Your task to perform on an android device: Search for a new lipgloss Image 0: 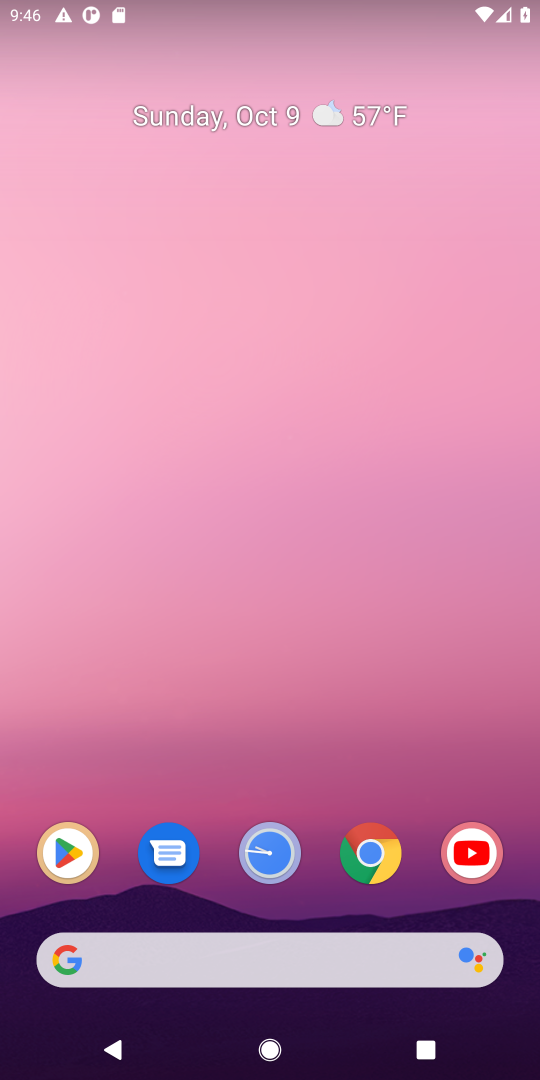
Step 0: click (367, 849)
Your task to perform on an android device: Search for a new lipgloss Image 1: 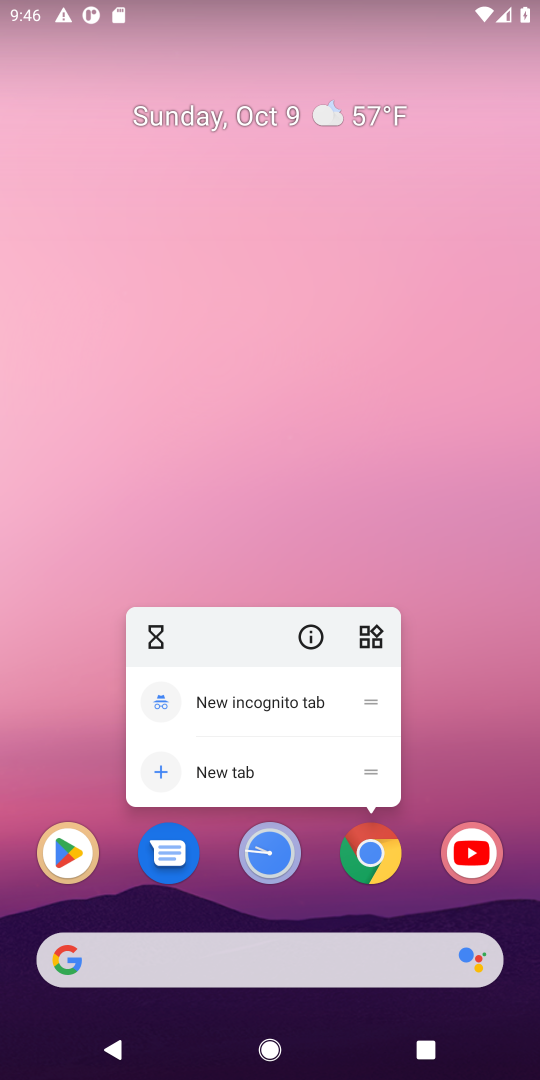
Step 1: click (367, 849)
Your task to perform on an android device: Search for a new lipgloss Image 2: 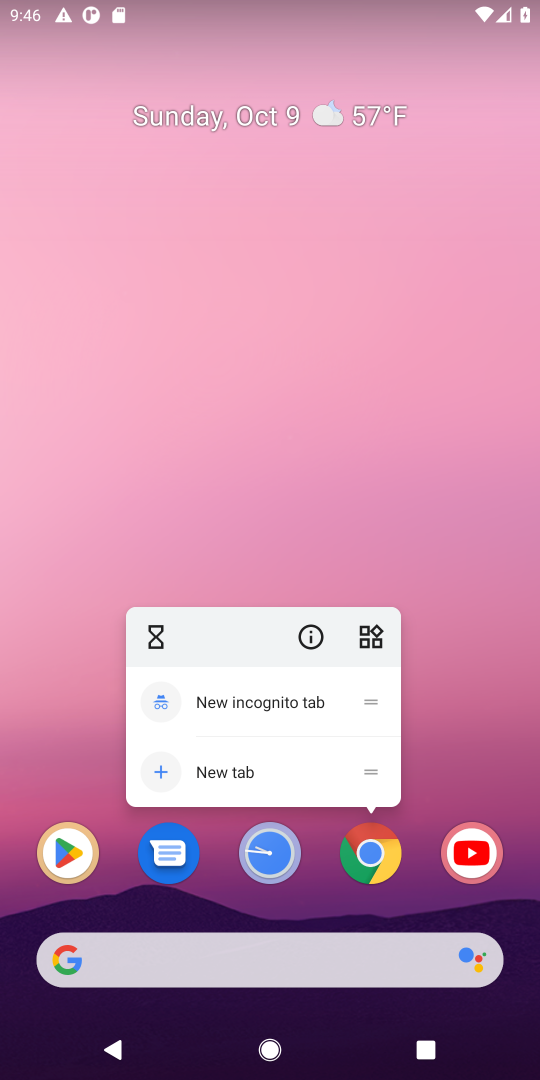
Step 2: click (368, 873)
Your task to perform on an android device: Search for a new lipgloss Image 3: 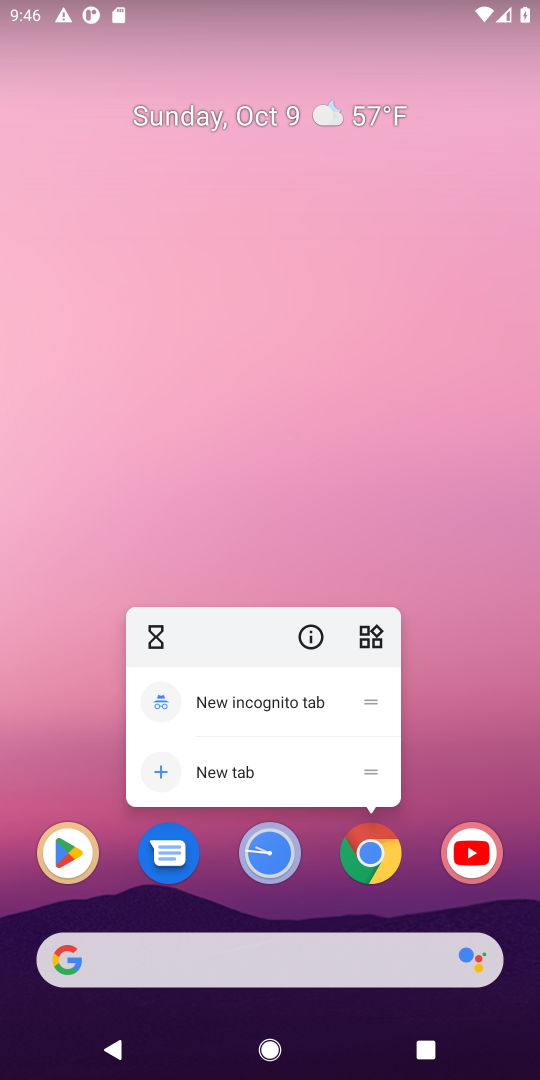
Step 3: click (368, 873)
Your task to perform on an android device: Search for a new lipgloss Image 4: 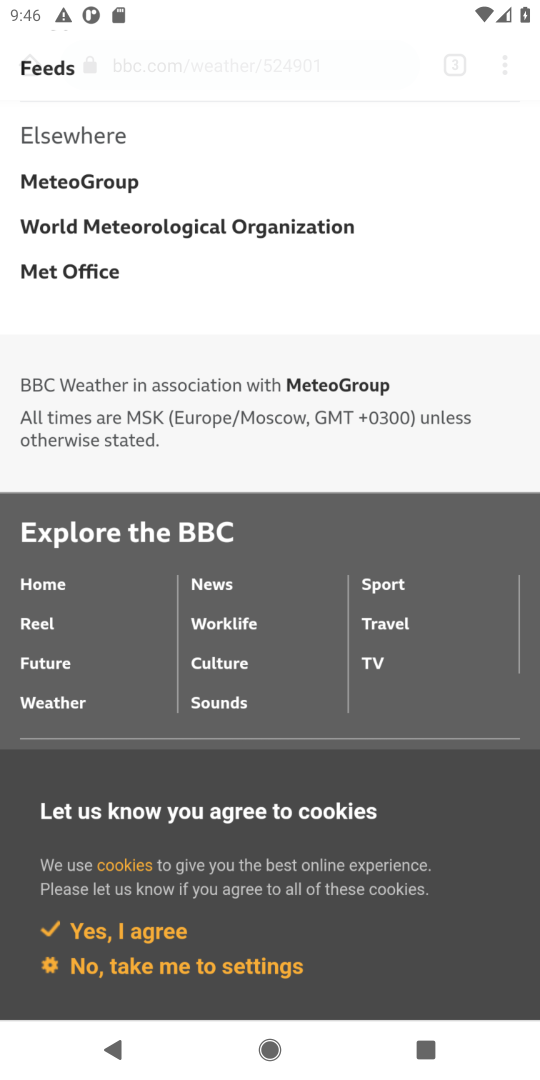
Step 4: click (368, 873)
Your task to perform on an android device: Search for a new lipgloss Image 5: 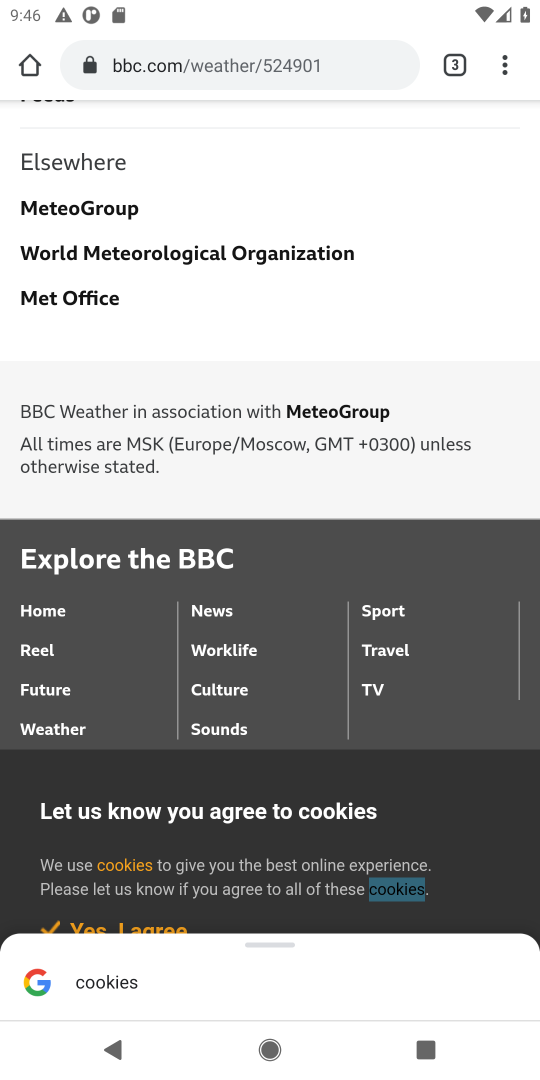
Step 5: click (132, 60)
Your task to perform on an android device: Search for a new lipgloss Image 6: 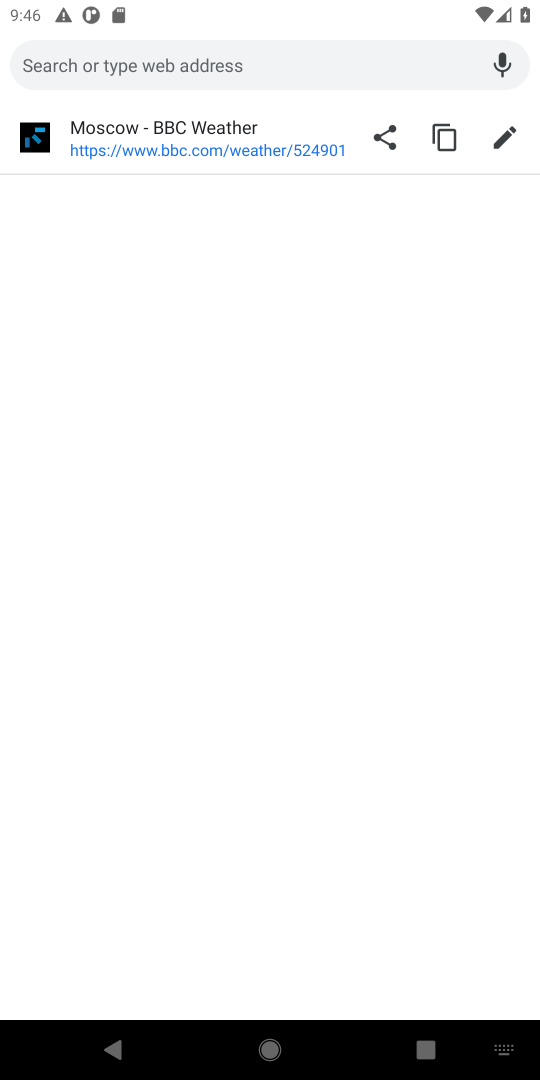
Step 6: type "new lipgloss"
Your task to perform on an android device: Search for a new lipgloss Image 7: 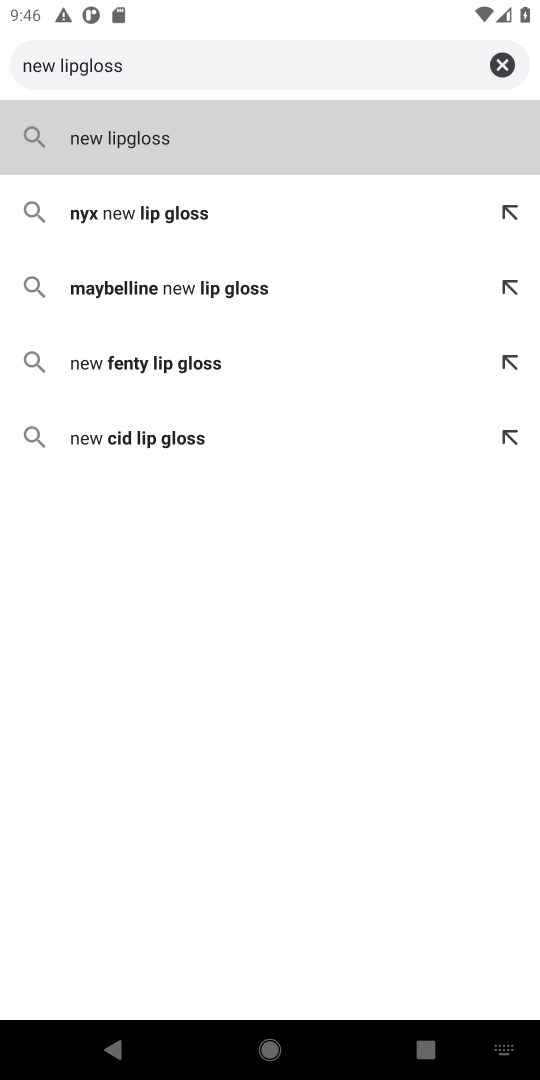
Step 7: type ""
Your task to perform on an android device: Search for a new lipgloss Image 8: 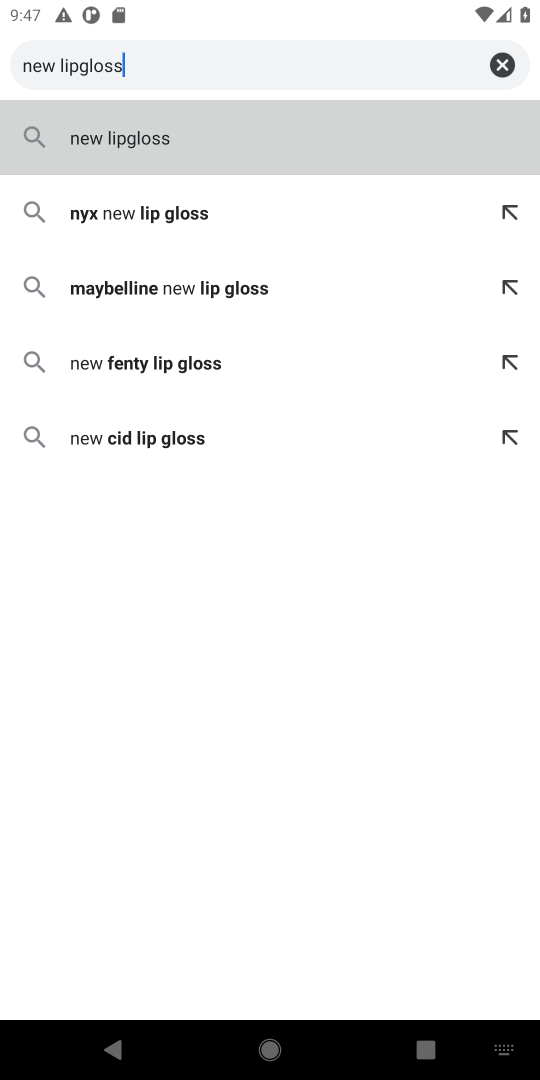
Step 8: press enter
Your task to perform on an android device: Search for a new lipgloss Image 9: 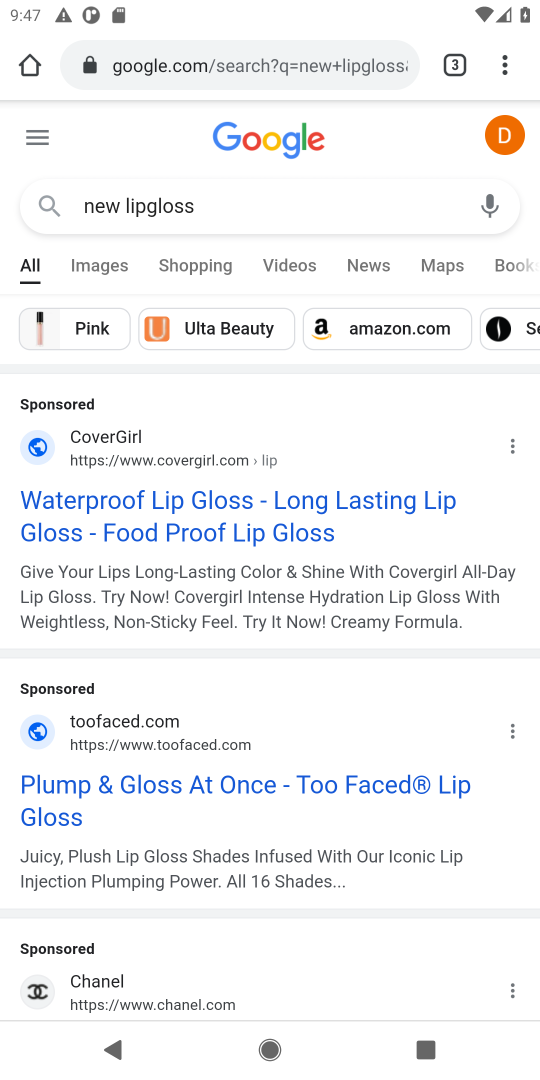
Step 9: drag from (226, 777) to (231, 401)
Your task to perform on an android device: Search for a new lipgloss Image 10: 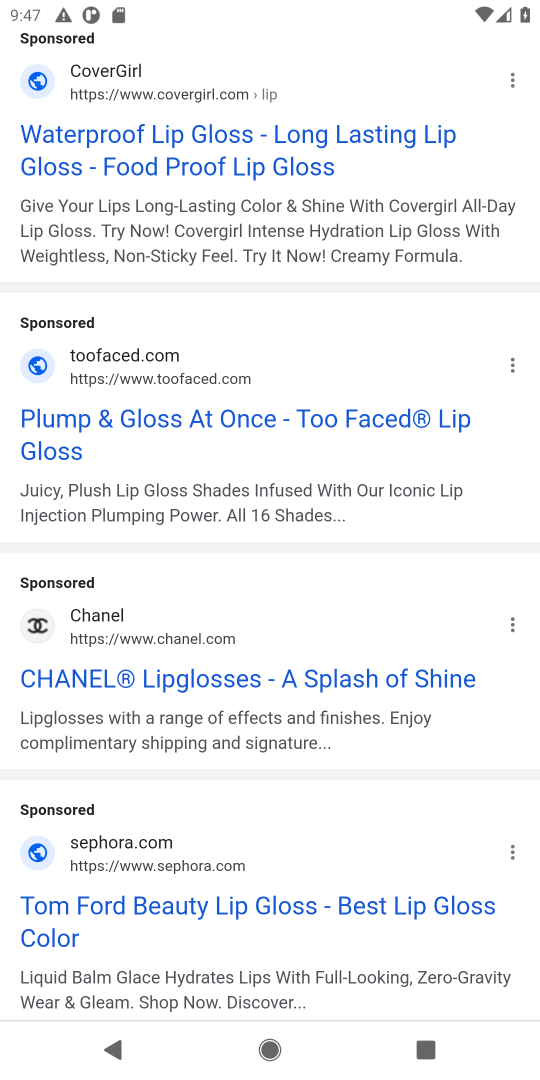
Step 10: click (245, 121)
Your task to perform on an android device: Search for a new lipgloss Image 11: 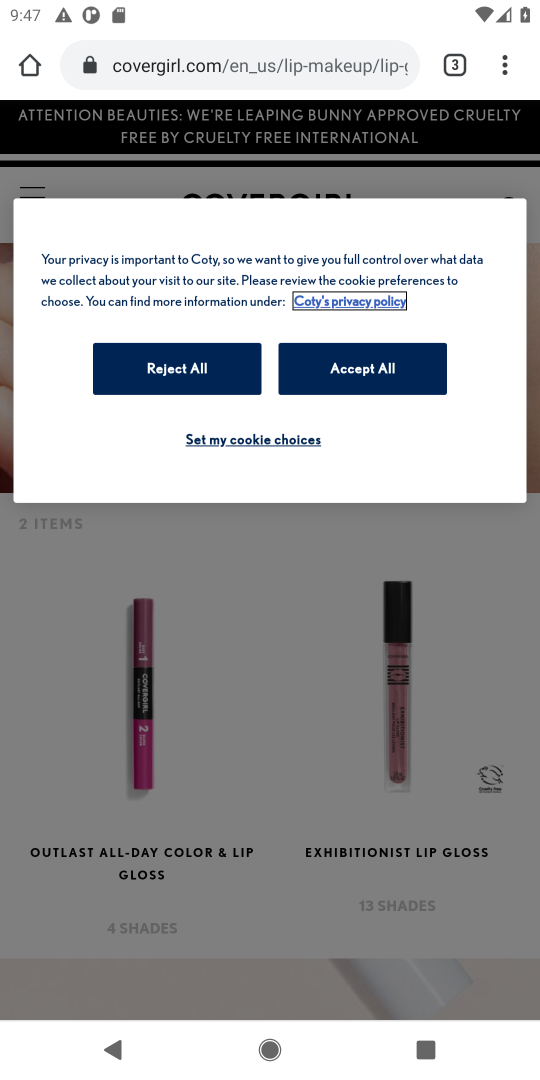
Step 11: drag from (343, 777) to (349, 427)
Your task to perform on an android device: Search for a new lipgloss Image 12: 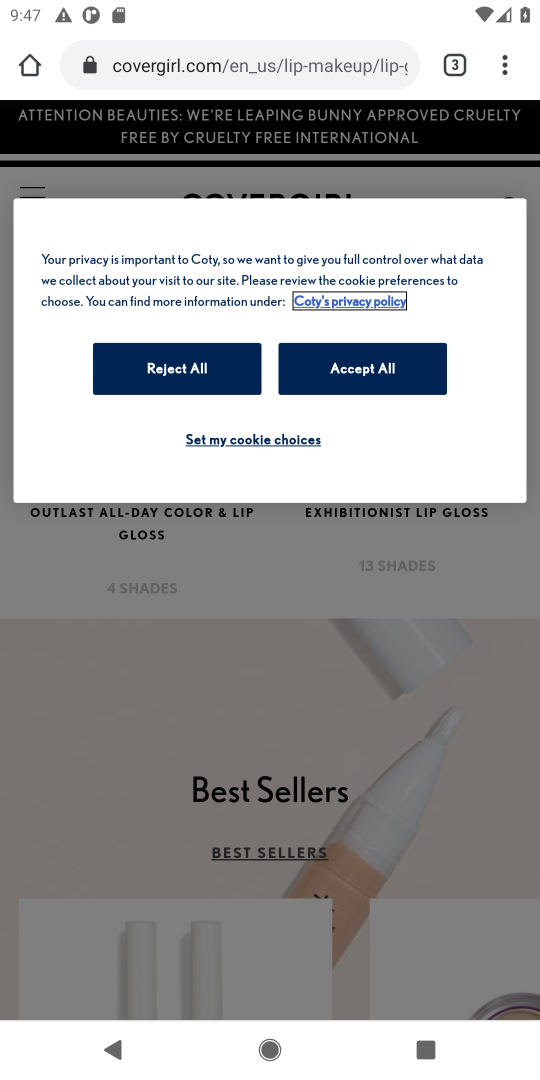
Step 12: click (208, 370)
Your task to perform on an android device: Search for a new lipgloss Image 13: 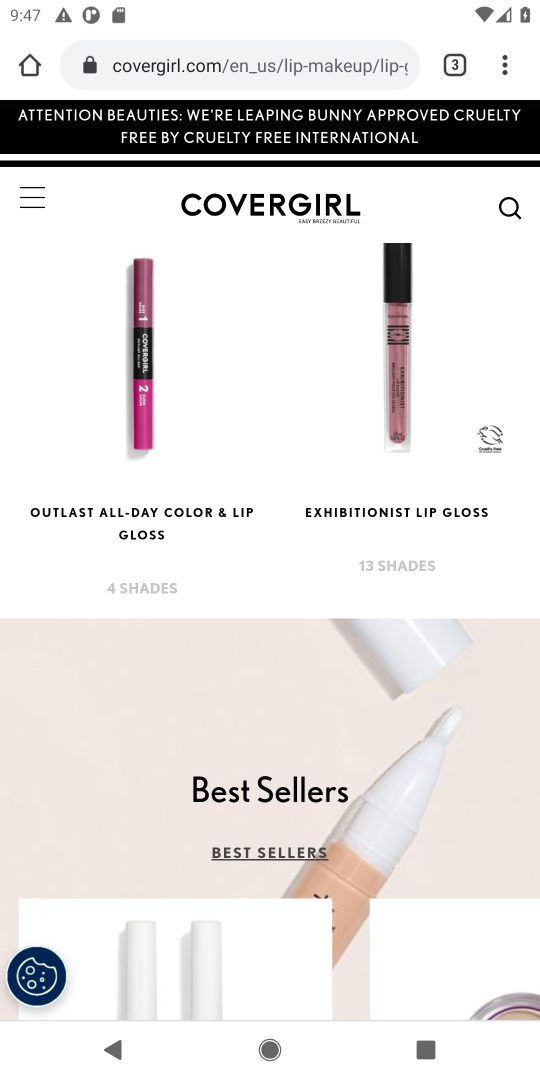
Step 13: drag from (264, 653) to (269, 366)
Your task to perform on an android device: Search for a new lipgloss Image 14: 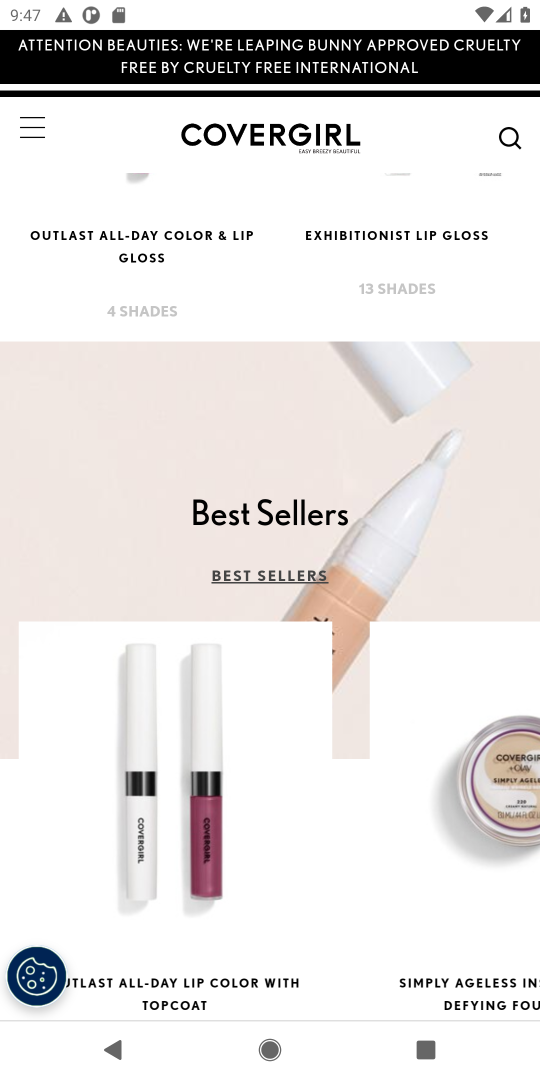
Step 14: drag from (283, 790) to (310, 341)
Your task to perform on an android device: Search for a new lipgloss Image 15: 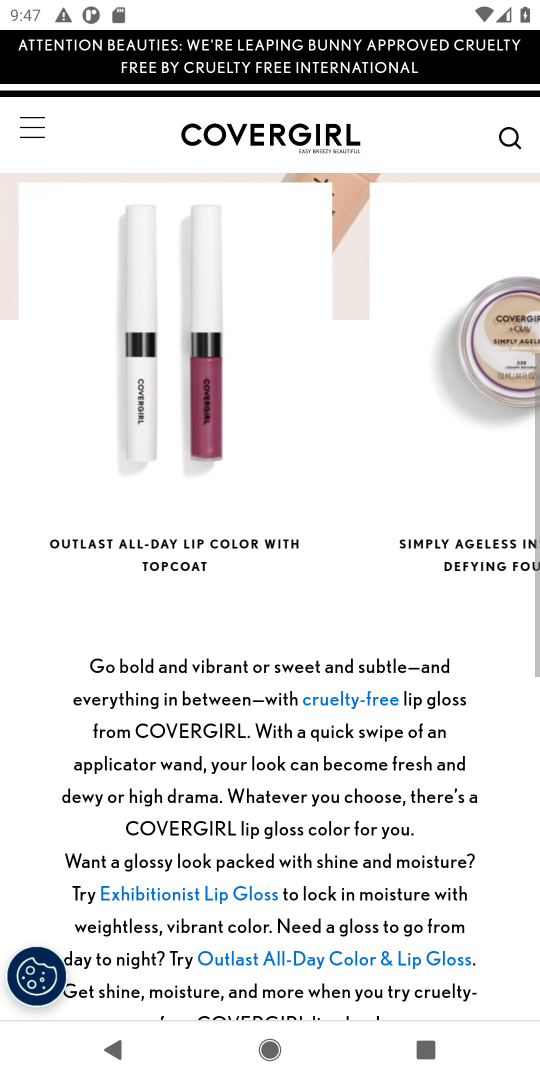
Step 15: drag from (361, 671) to (378, 255)
Your task to perform on an android device: Search for a new lipgloss Image 16: 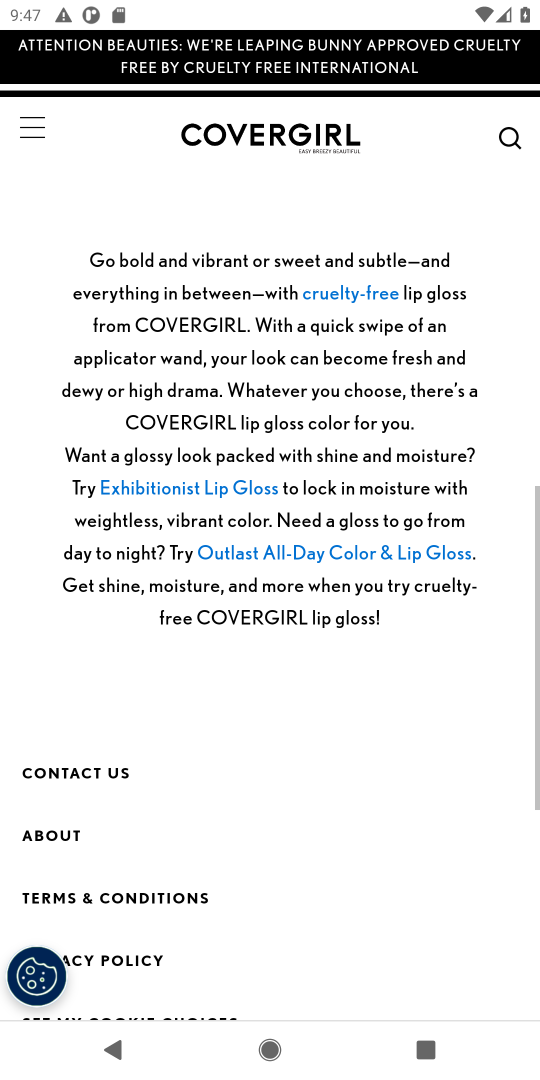
Step 16: drag from (378, 813) to (377, 379)
Your task to perform on an android device: Search for a new lipgloss Image 17: 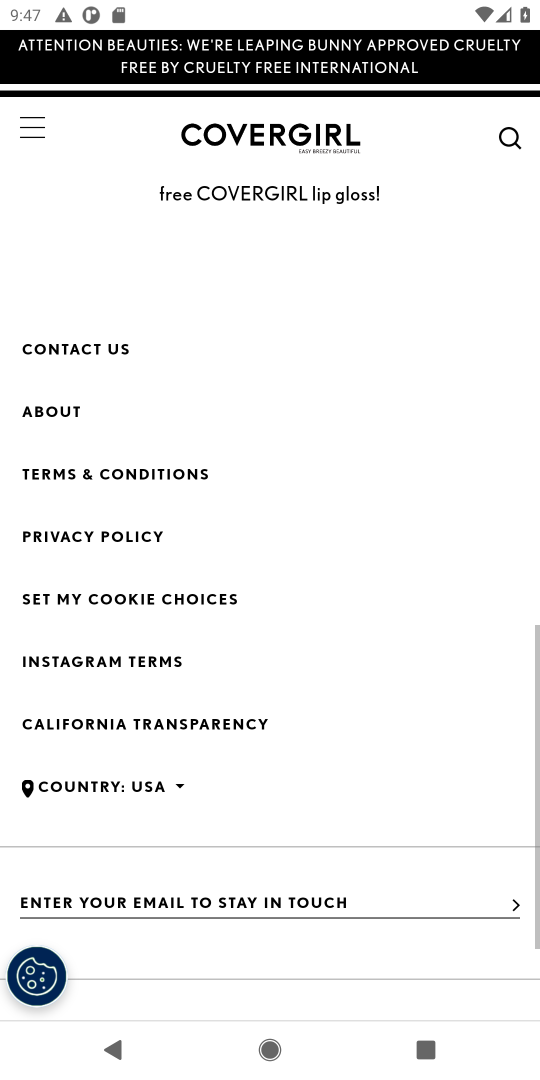
Step 17: drag from (363, 834) to (327, 467)
Your task to perform on an android device: Search for a new lipgloss Image 18: 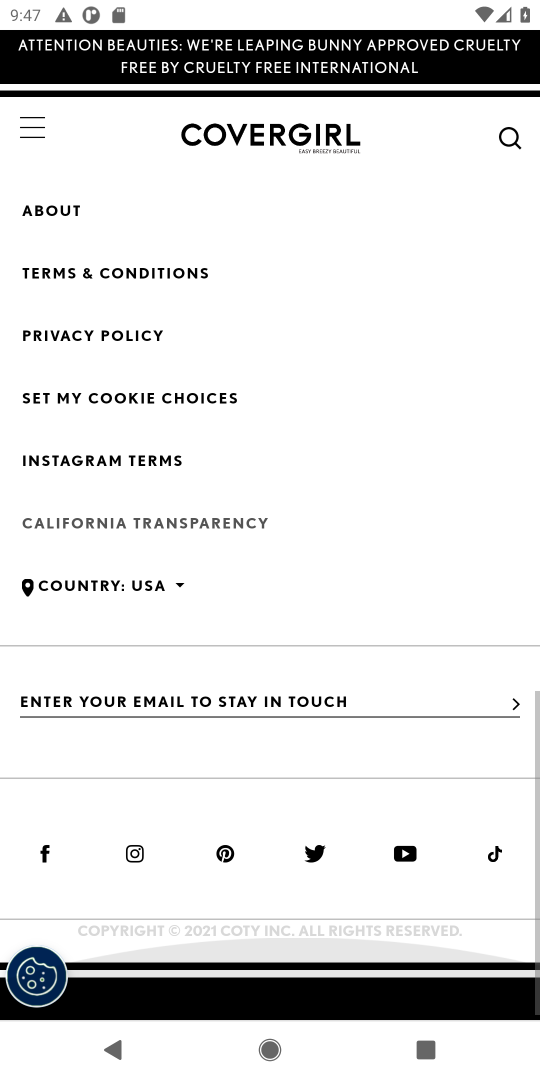
Step 18: drag from (333, 759) to (350, 354)
Your task to perform on an android device: Search for a new lipgloss Image 19: 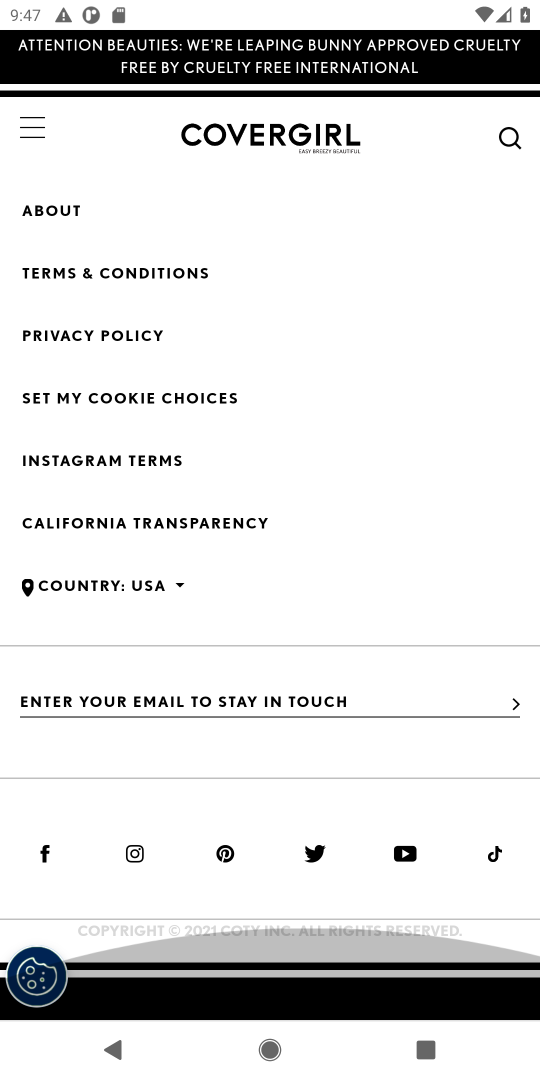
Step 19: drag from (363, 606) to (389, 914)
Your task to perform on an android device: Search for a new lipgloss Image 20: 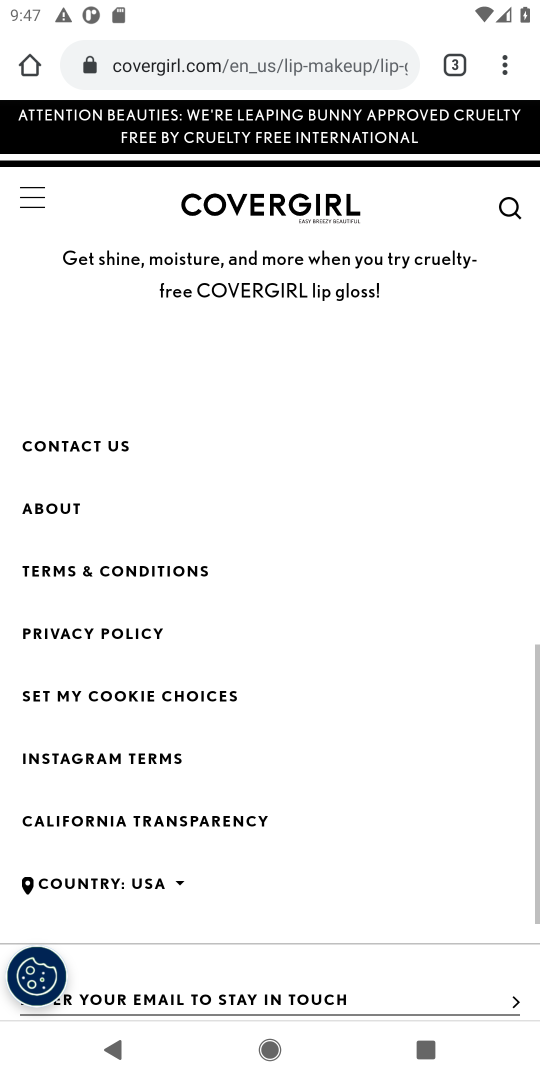
Step 20: drag from (354, 331) to (355, 891)
Your task to perform on an android device: Search for a new lipgloss Image 21: 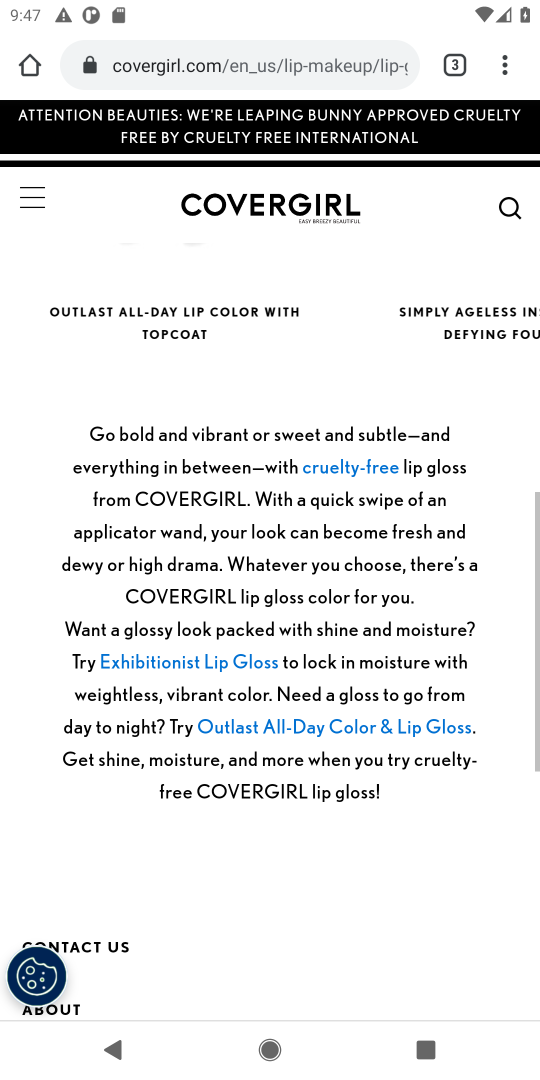
Step 21: drag from (280, 407) to (328, 940)
Your task to perform on an android device: Search for a new lipgloss Image 22: 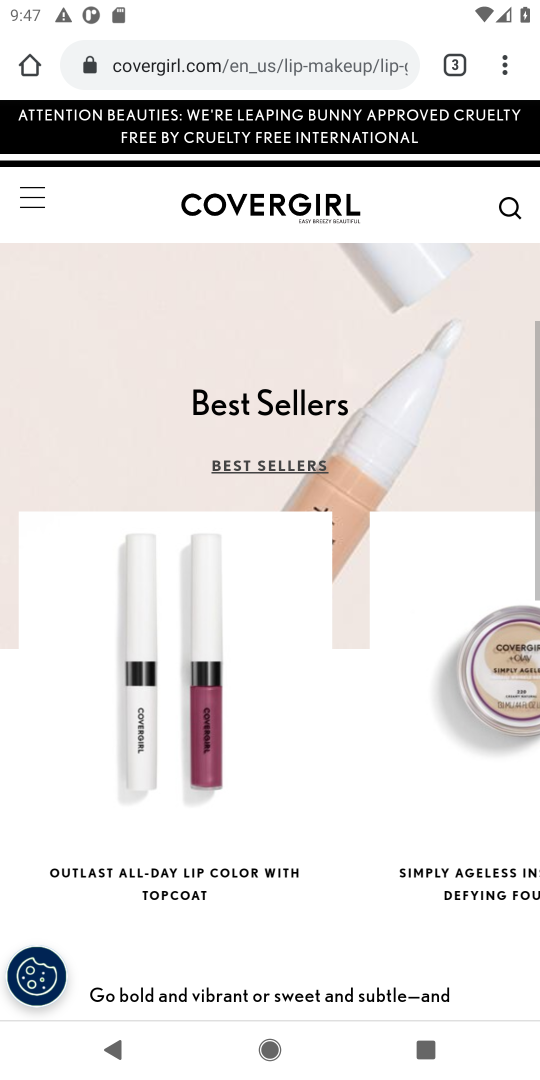
Step 22: drag from (329, 853) to (396, 865)
Your task to perform on an android device: Search for a new lipgloss Image 23: 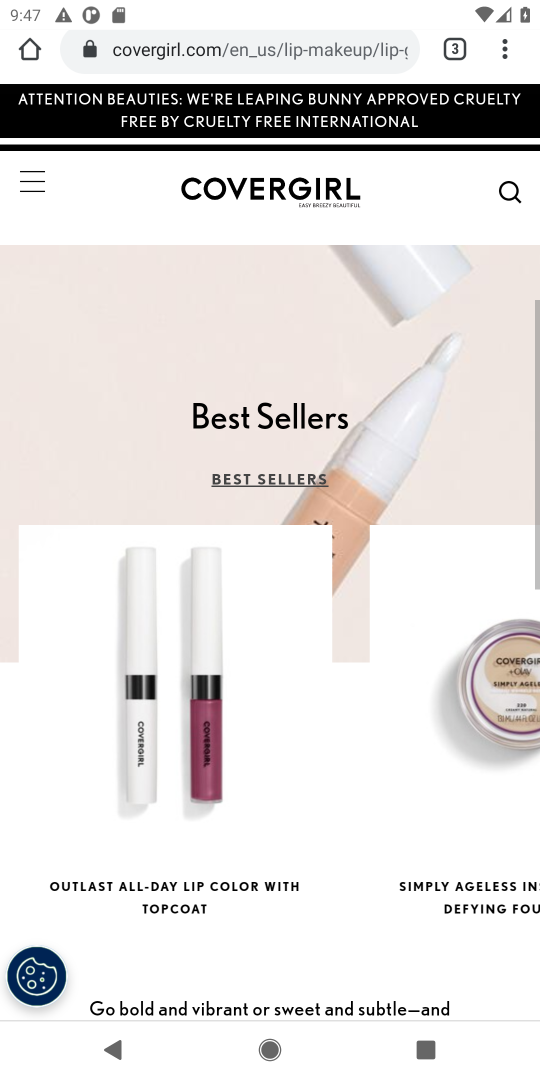
Step 23: drag from (335, 364) to (391, 907)
Your task to perform on an android device: Search for a new lipgloss Image 24: 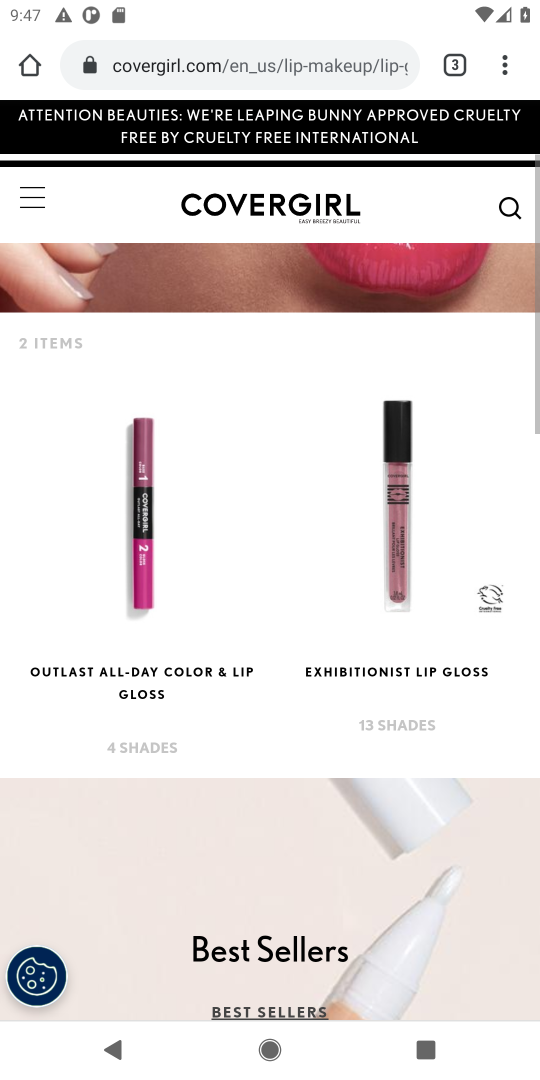
Step 24: drag from (330, 433) to (390, 901)
Your task to perform on an android device: Search for a new lipgloss Image 25: 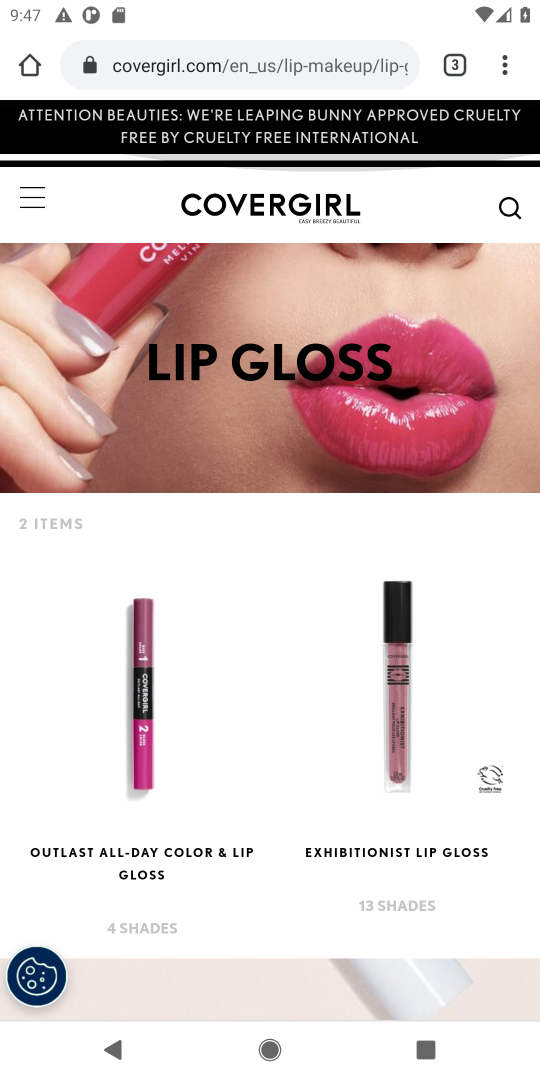
Step 25: drag from (359, 401) to (435, 992)
Your task to perform on an android device: Search for a new lipgloss Image 26: 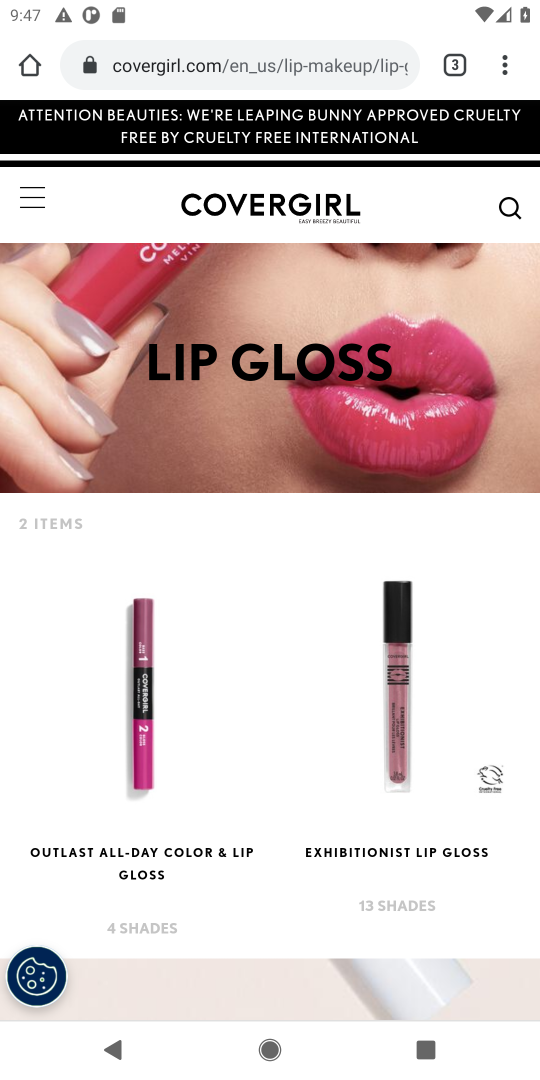
Step 26: drag from (234, 561) to (279, 931)
Your task to perform on an android device: Search for a new lipgloss Image 27: 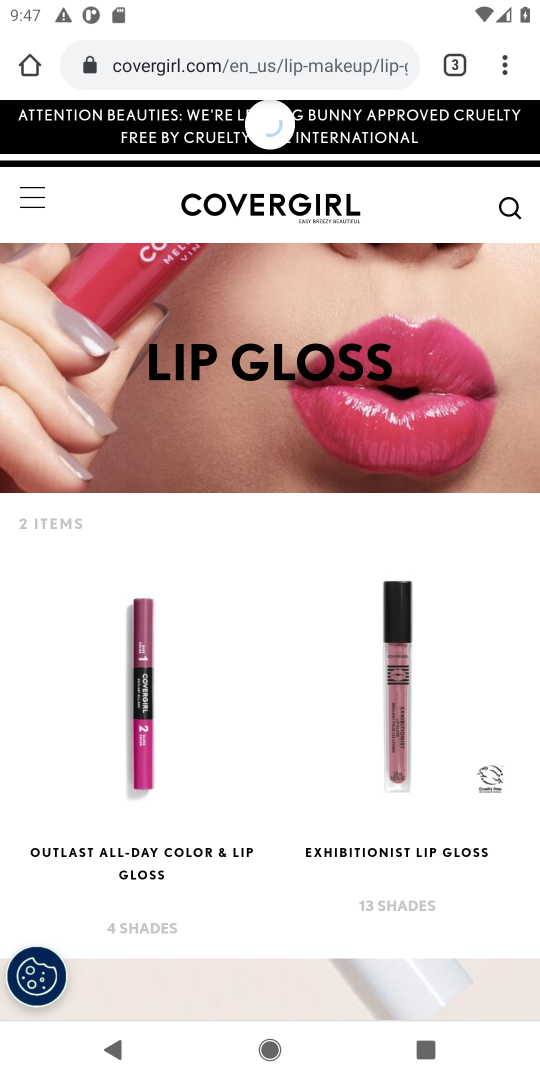
Step 27: drag from (264, 651) to (318, 281)
Your task to perform on an android device: Search for a new lipgloss Image 28: 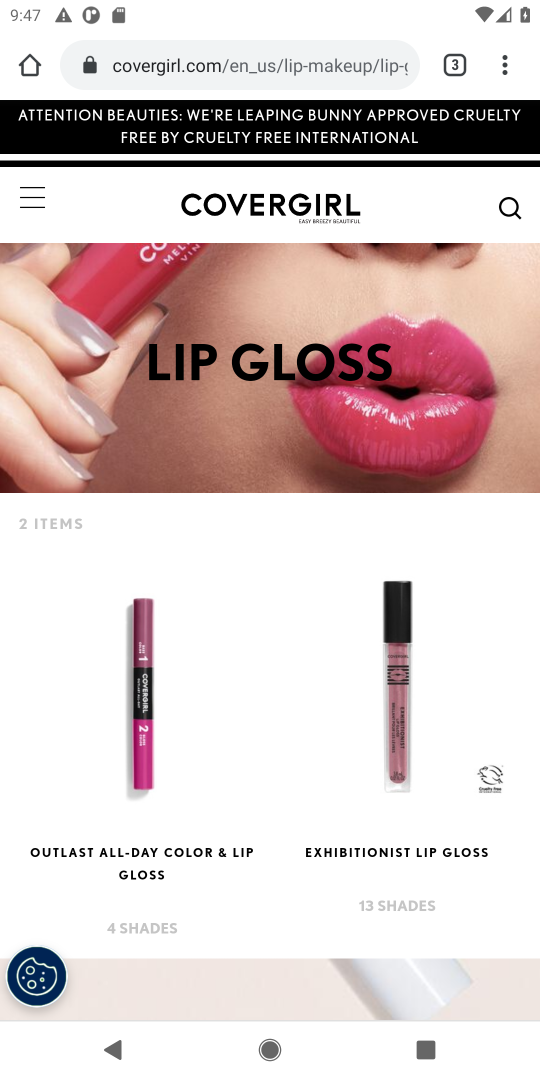
Step 28: drag from (371, 826) to (154, 717)
Your task to perform on an android device: Search for a new lipgloss Image 29: 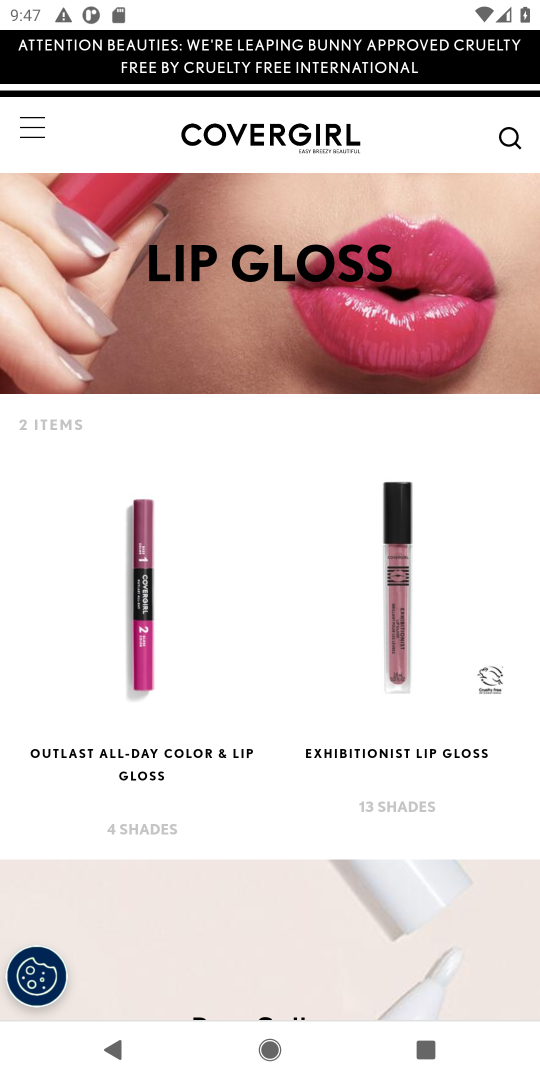
Step 29: click (154, 717)
Your task to perform on an android device: Search for a new lipgloss Image 30: 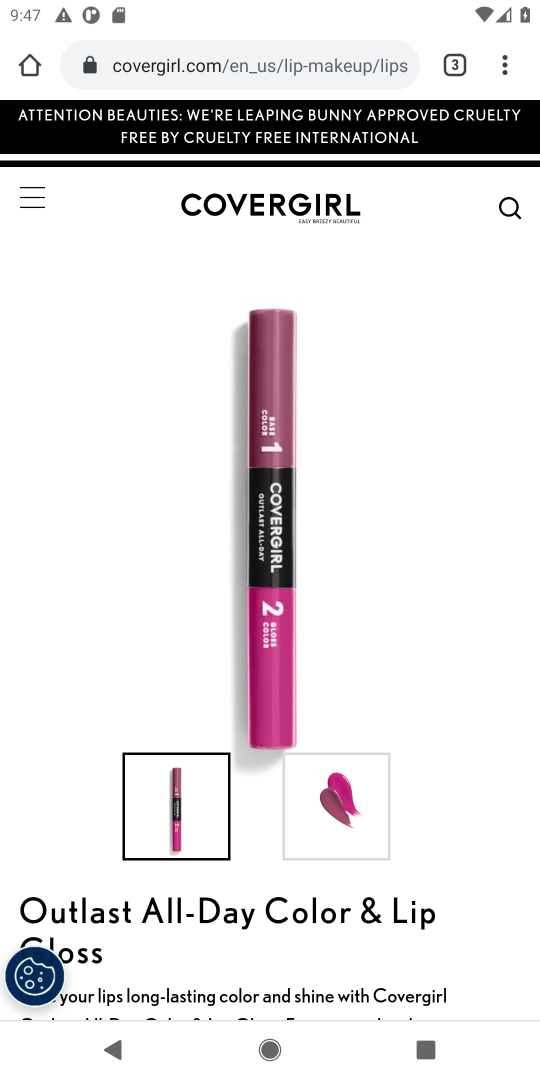
Step 30: drag from (305, 834) to (302, 320)
Your task to perform on an android device: Search for a new lipgloss Image 31: 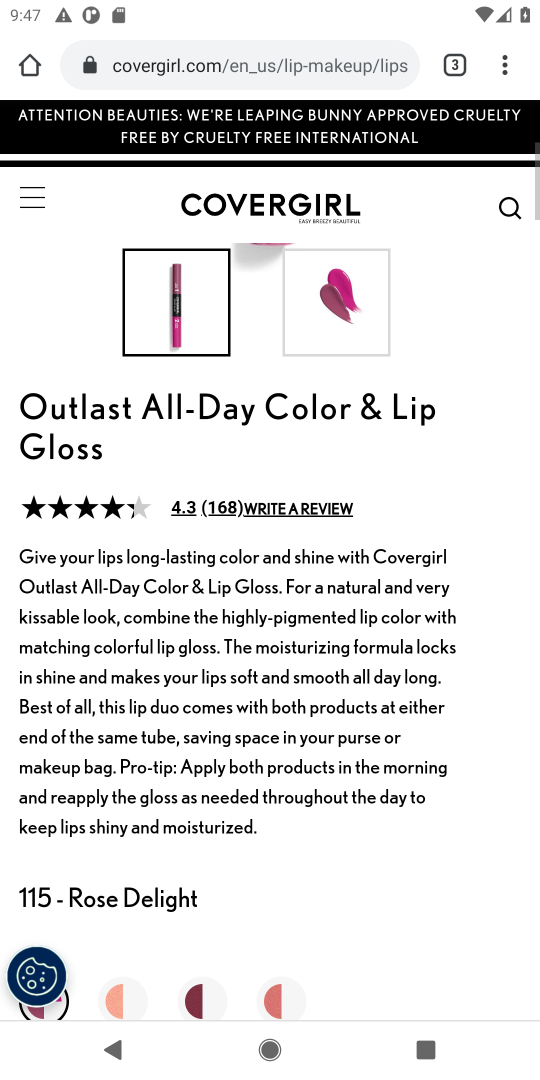
Step 31: drag from (345, 784) to (377, 373)
Your task to perform on an android device: Search for a new lipgloss Image 32: 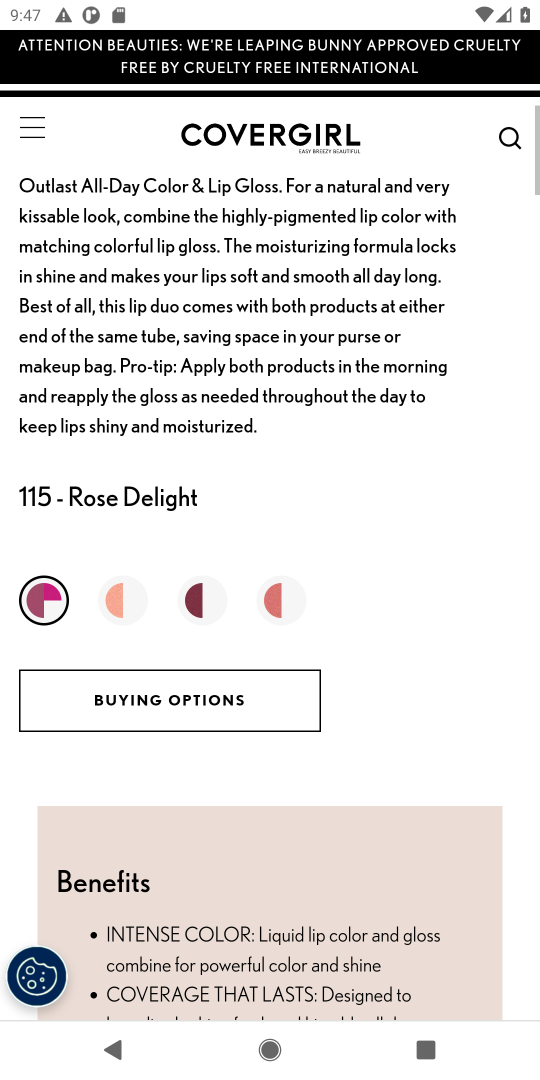
Step 32: drag from (344, 641) to (349, 421)
Your task to perform on an android device: Search for a new lipgloss Image 33: 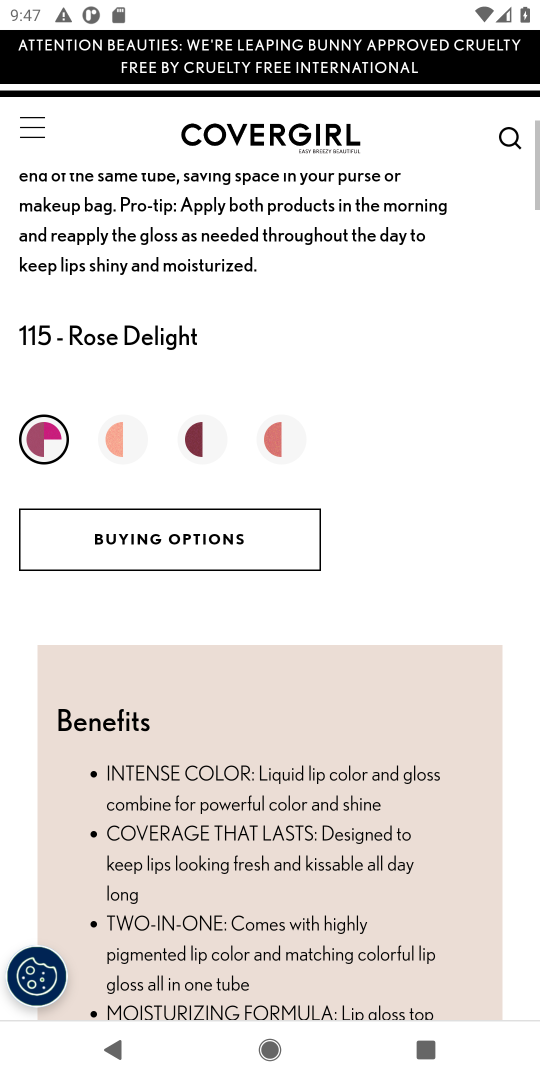
Step 33: drag from (359, 668) to (390, 450)
Your task to perform on an android device: Search for a new lipgloss Image 34: 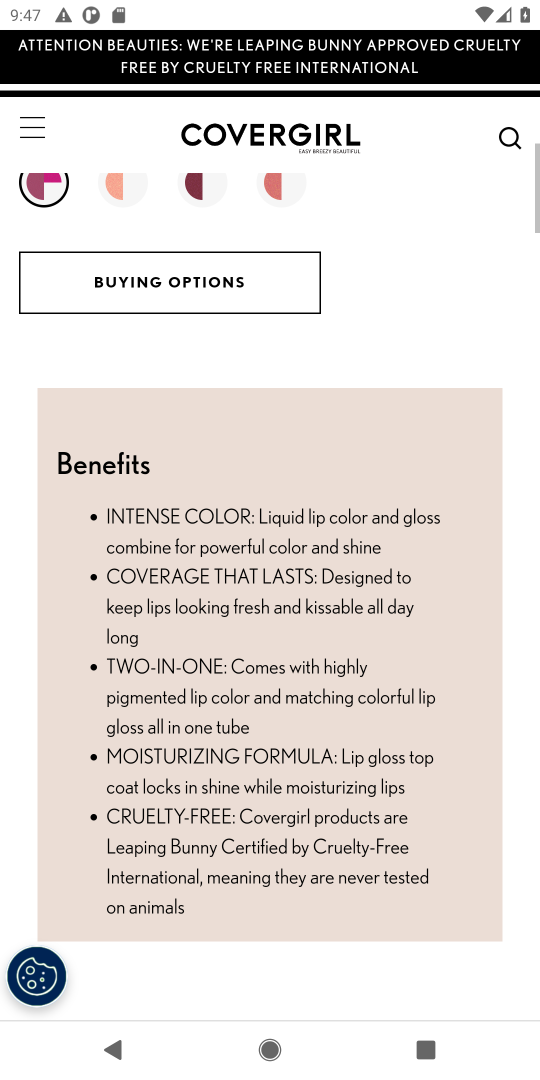
Step 34: drag from (377, 655) to (370, 408)
Your task to perform on an android device: Search for a new lipgloss Image 35: 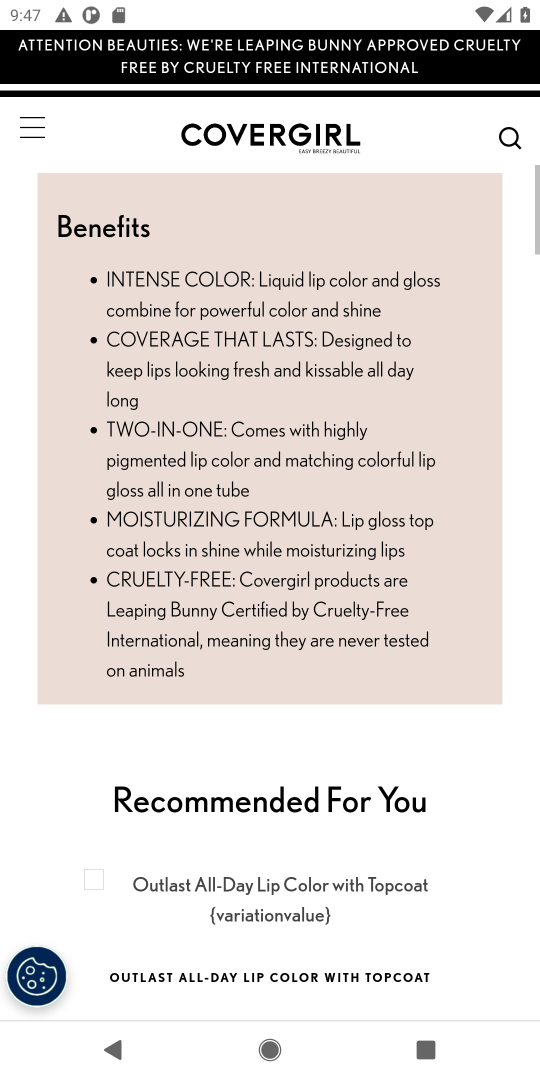
Step 35: drag from (390, 567) to (398, 315)
Your task to perform on an android device: Search for a new lipgloss Image 36: 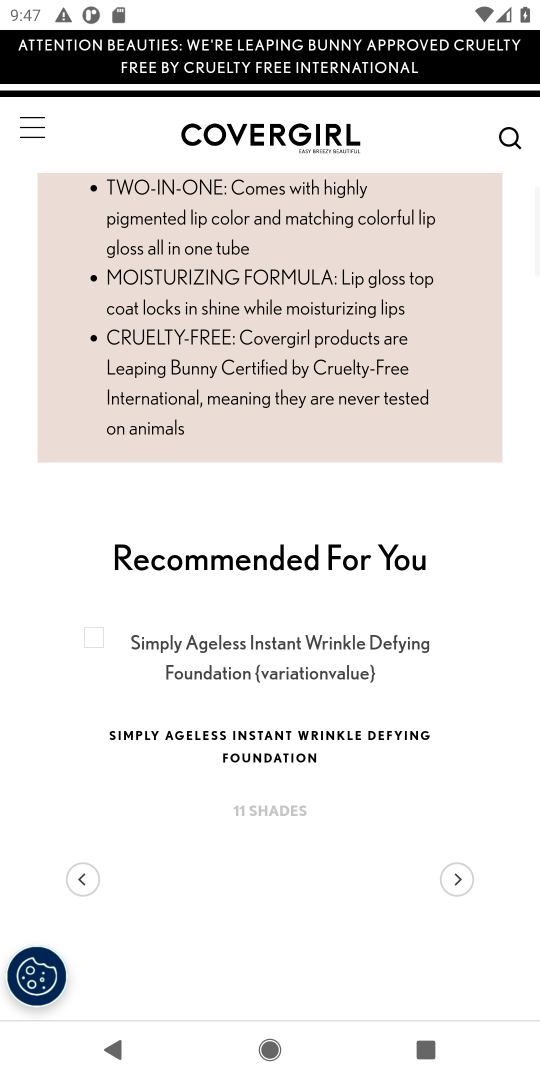
Step 36: drag from (376, 571) to (390, 414)
Your task to perform on an android device: Search for a new lipgloss Image 37: 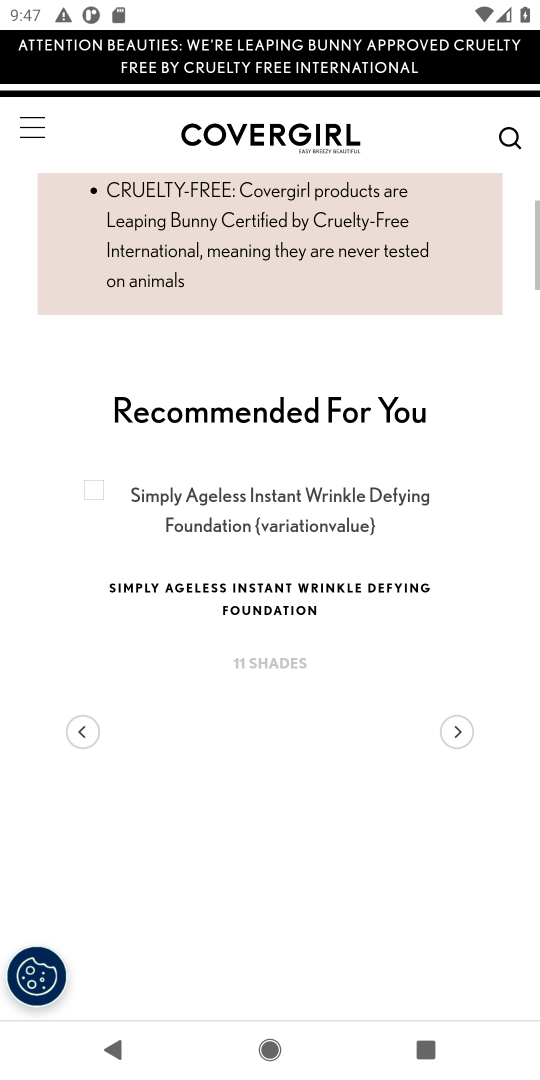
Step 37: drag from (328, 708) to (354, 267)
Your task to perform on an android device: Search for a new lipgloss Image 38: 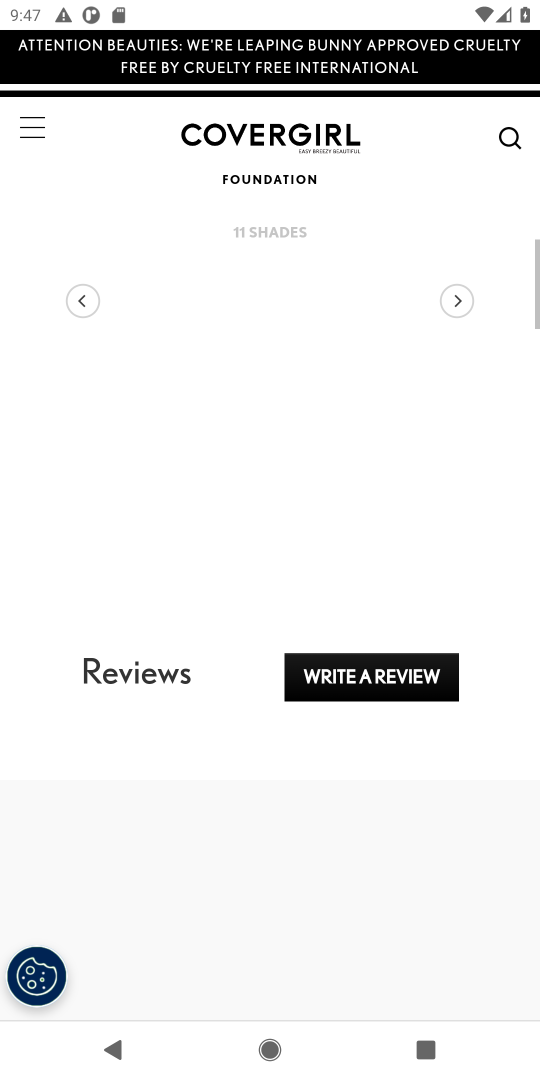
Step 38: drag from (375, 415) to (364, 324)
Your task to perform on an android device: Search for a new lipgloss Image 39: 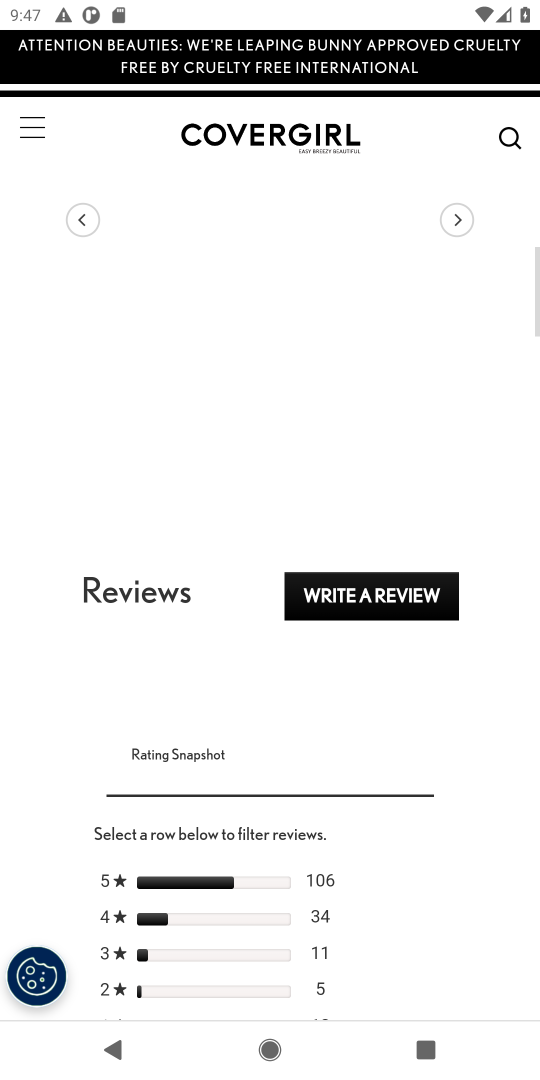
Step 39: press back button
Your task to perform on an android device: Search for a new lipgloss Image 40: 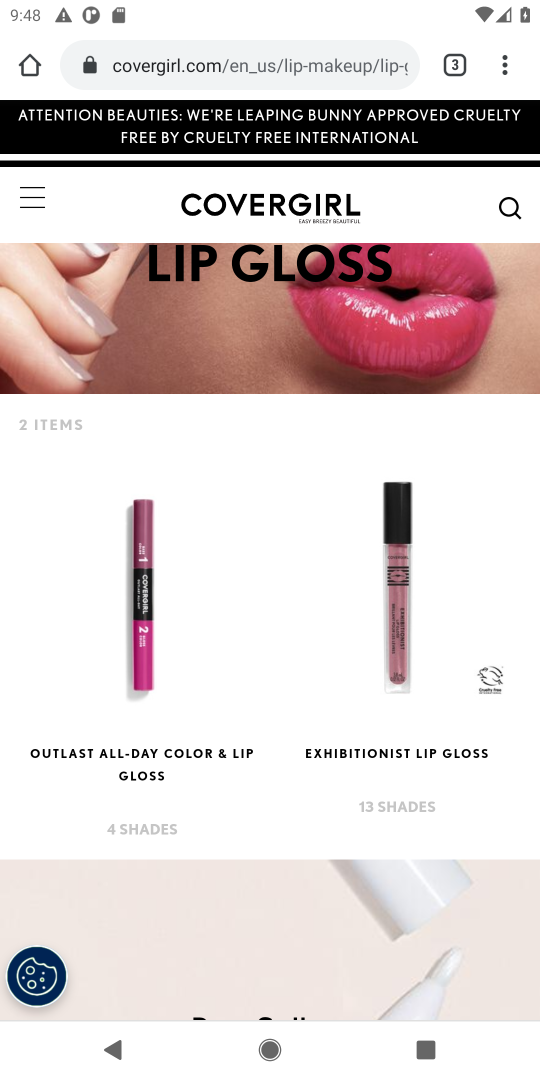
Step 40: drag from (301, 745) to (351, 233)
Your task to perform on an android device: Search for a new lipgloss Image 41: 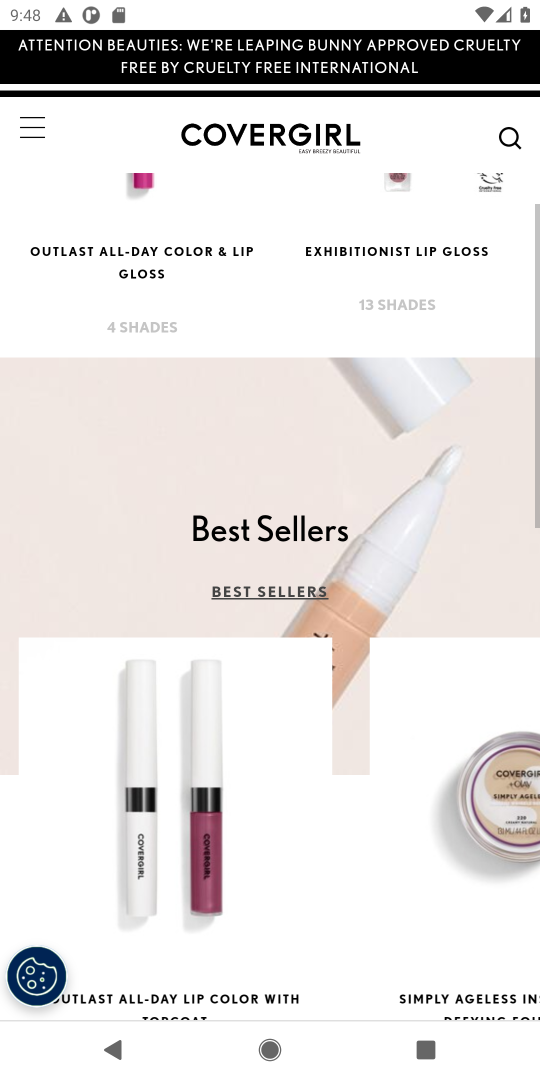
Step 41: drag from (375, 570) to (338, 276)
Your task to perform on an android device: Search for a new lipgloss Image 42: 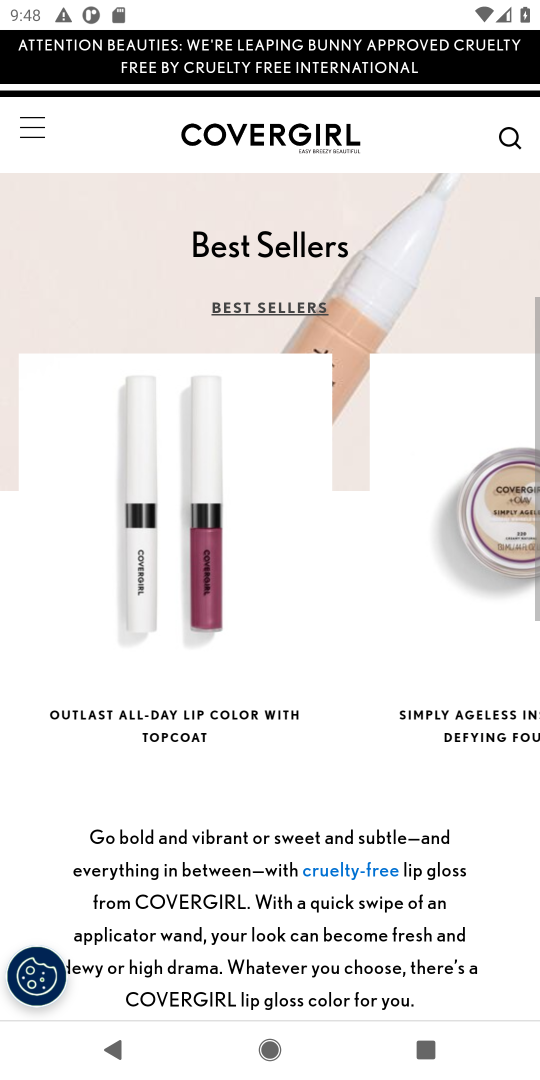
Step 42: drag from (378, 801) to (371, 275)
Your task to perform on an android device: Search for a new lipgloss Image 43: 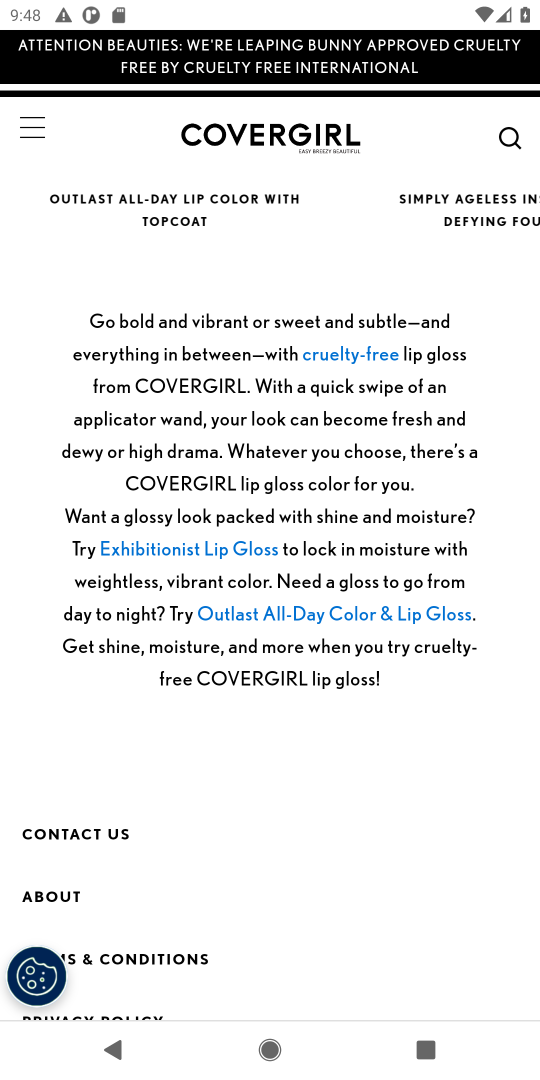
Step 43: press back button
Your task to perform on an android device: Search for a new lipgloss Image 44: 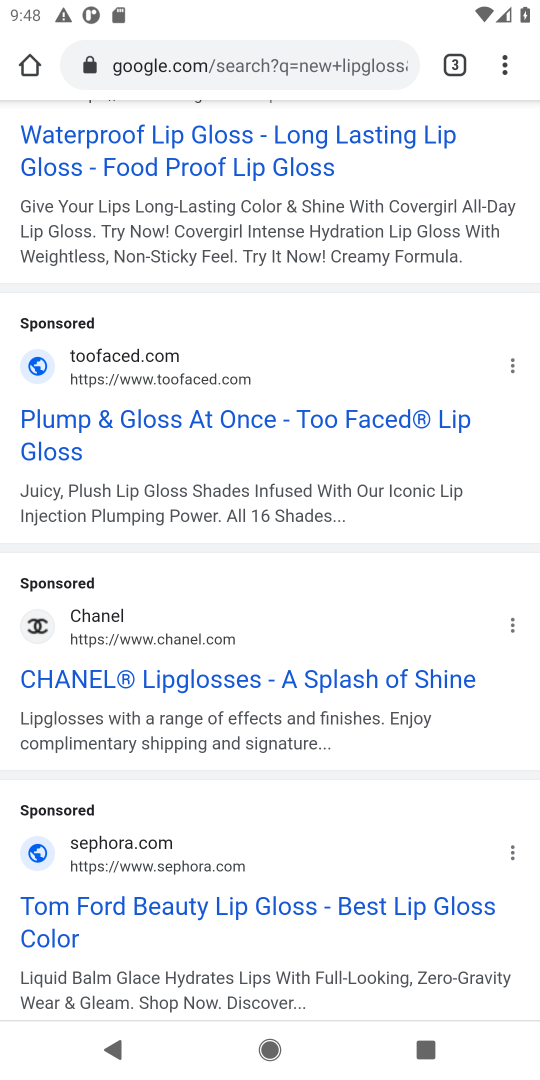
Step 44: drag from (404, 849) to (398, 135)
Your task to perform on an android device: Search for a new lipgloss Image 45: 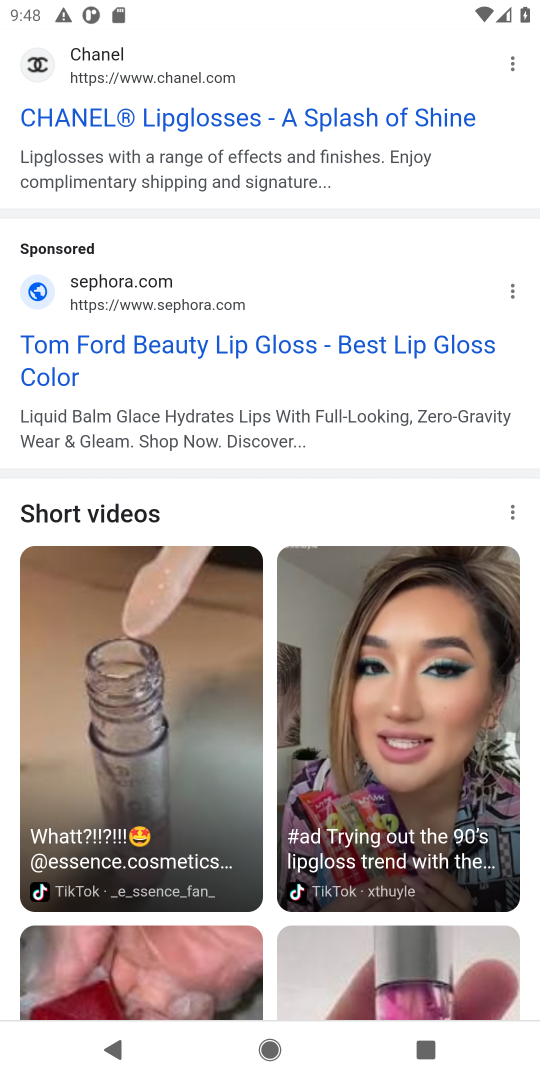
Step 45: drag from (354, 536) to (347, 300)
Your task to perform on an android device: Search for a new lipgloss Image 46: 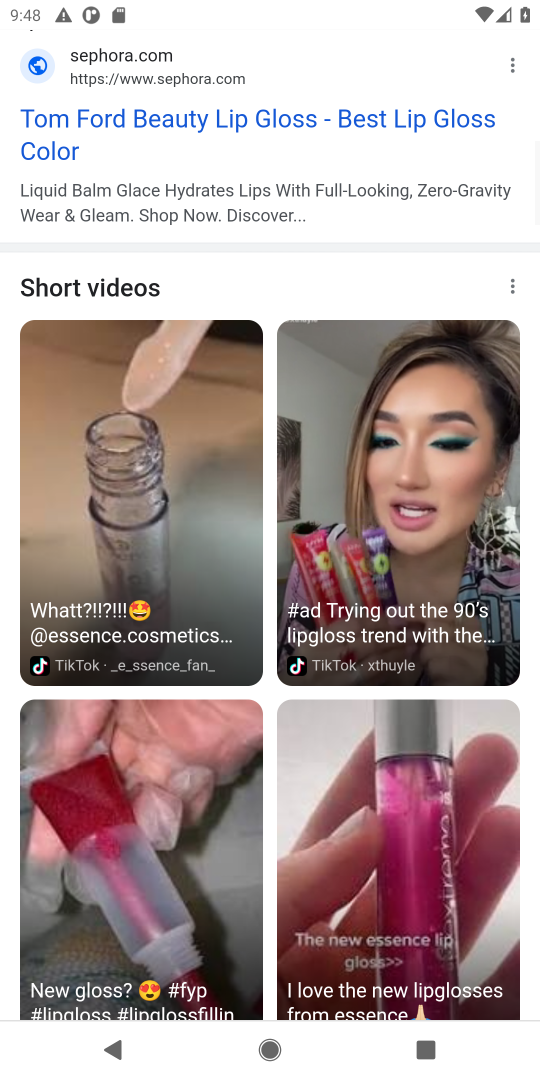
Step 46: click (302, 343)
Your task to perform on an android device: Search for a new lipgloss Image 47: 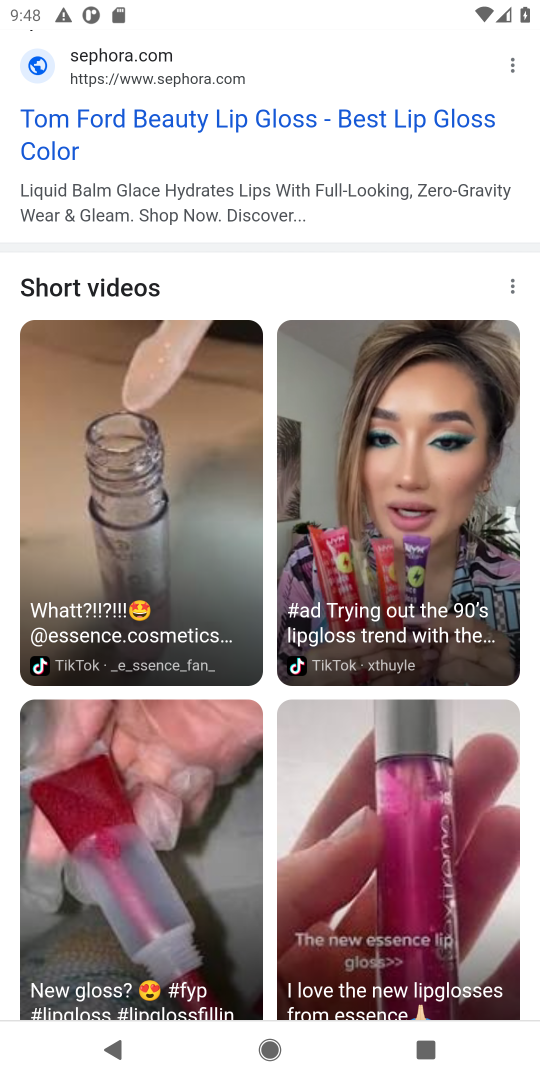
Step 47: click (246, 110)
Your task to perform on an android device: Search for a new lipgloss Image 48: 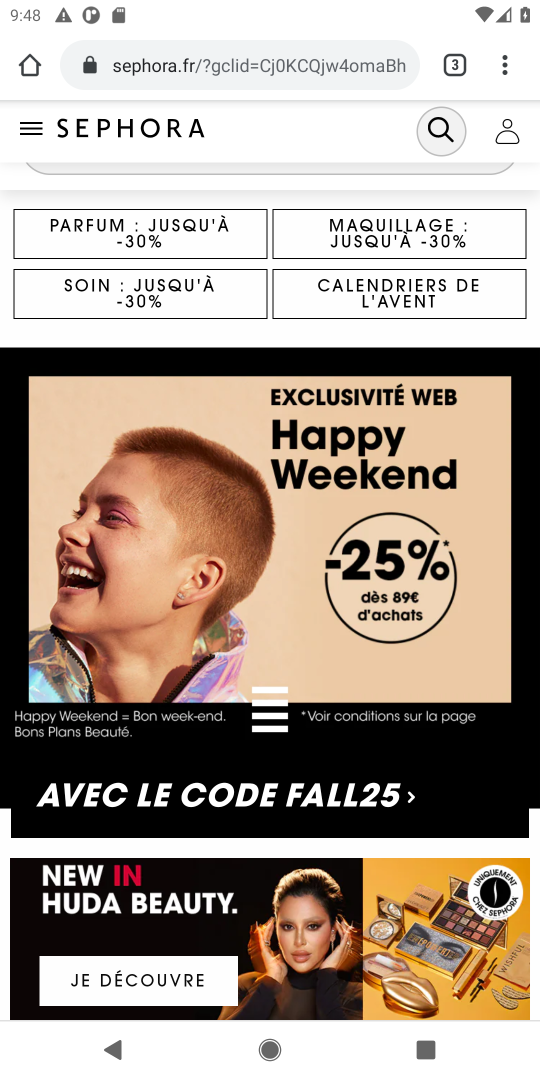
Step 48: drag from (313, 575) to (367, 119)
Your task to perform on an android device: Search for a new lipgloss Image 49: 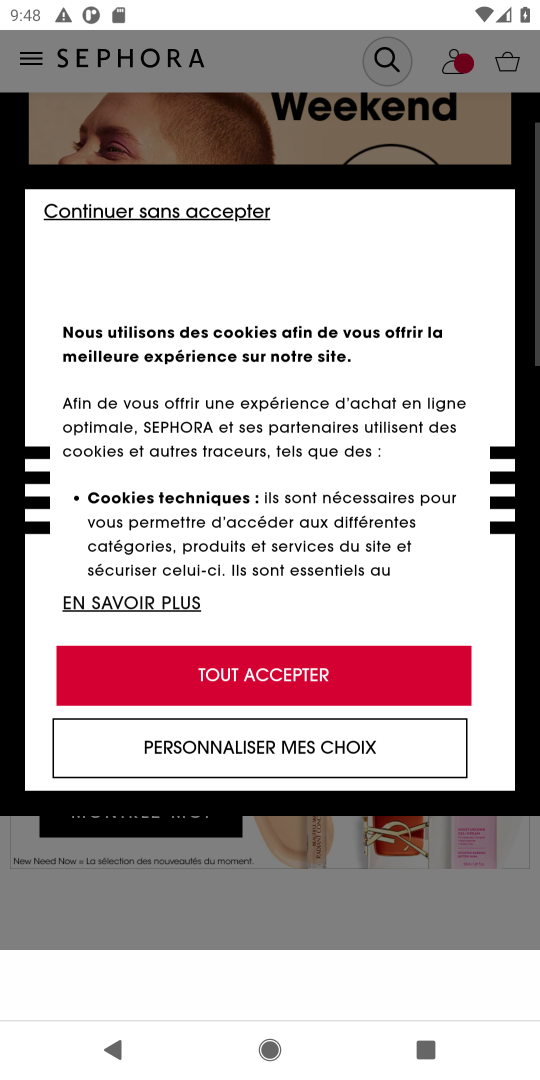
Step 49: drag from (381, 789) to (375, 203)
Your task to perform on an android device: Search for a new lipgloss Image 50: 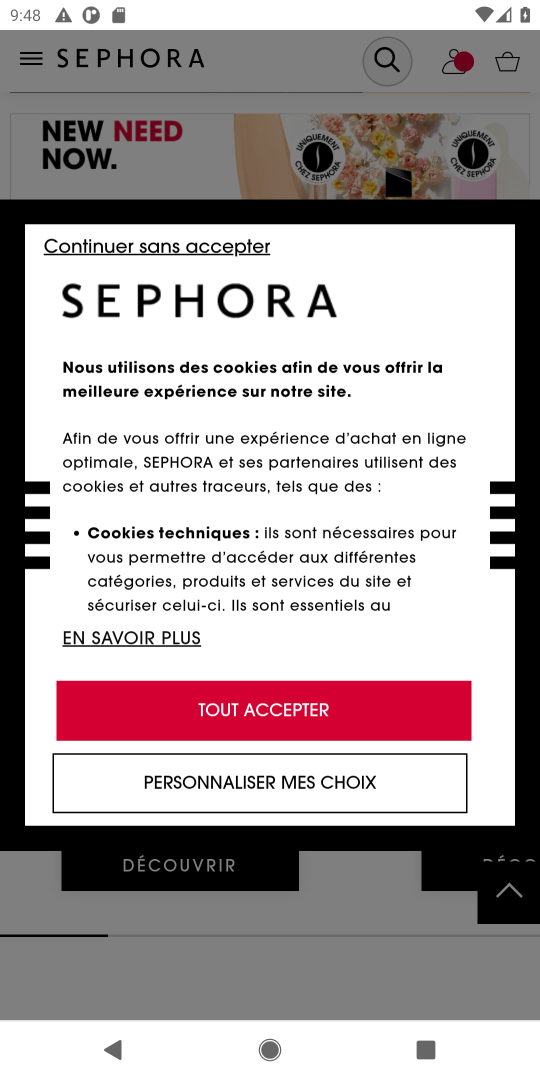
Step 50: click (275, 721)
Your task to perform on an android device: Search for a new lipgloss Image 51: 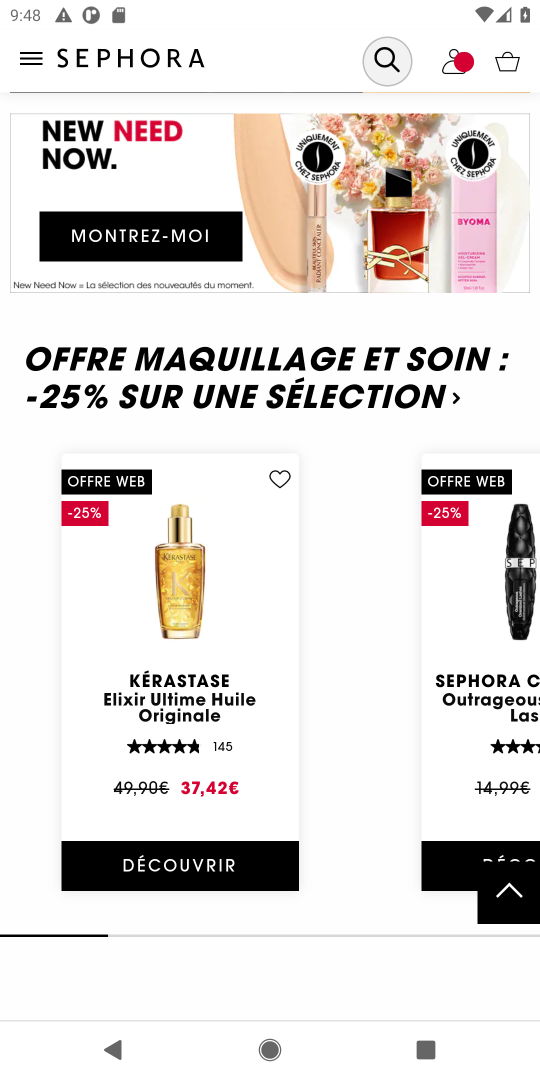
Step 51: drag from (297, 832) to (290, 83)
Your task to perform on an android device: Search for a new lipgloss Image 52: 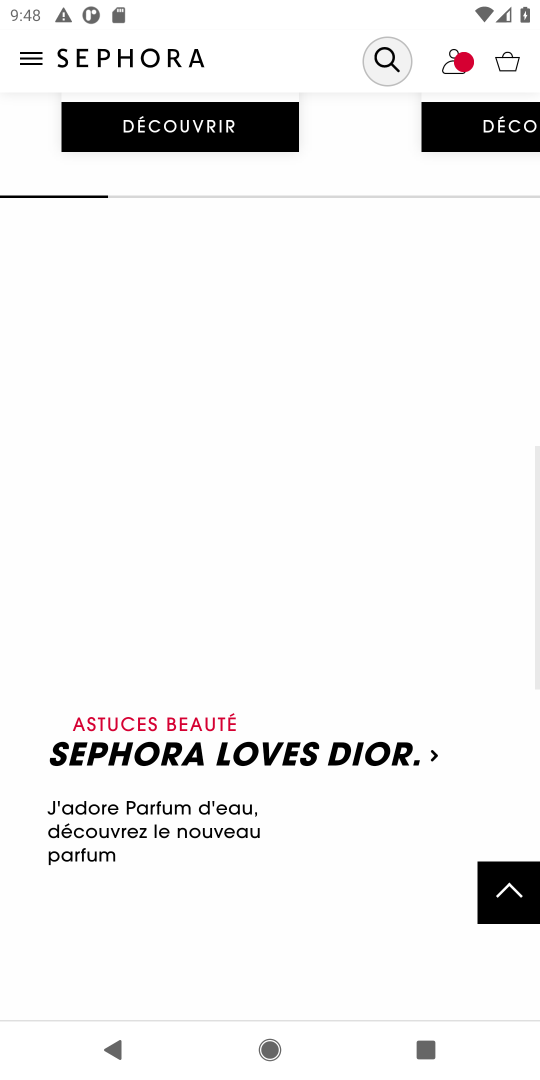
Step 52: drag from (381, 632) to (390, 178)
Your task to perform on an android device: Search for a new lipgloss Image 53: 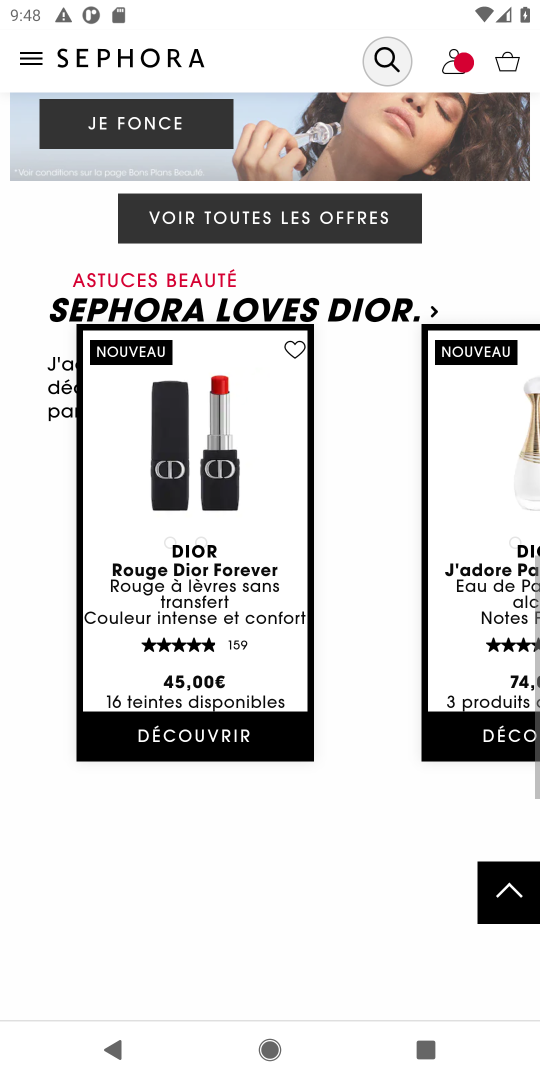
Step 53: drag from (402, 753) to (378, 440)
Your task to perform on an android device: Search for a new lipgloss Image 54: 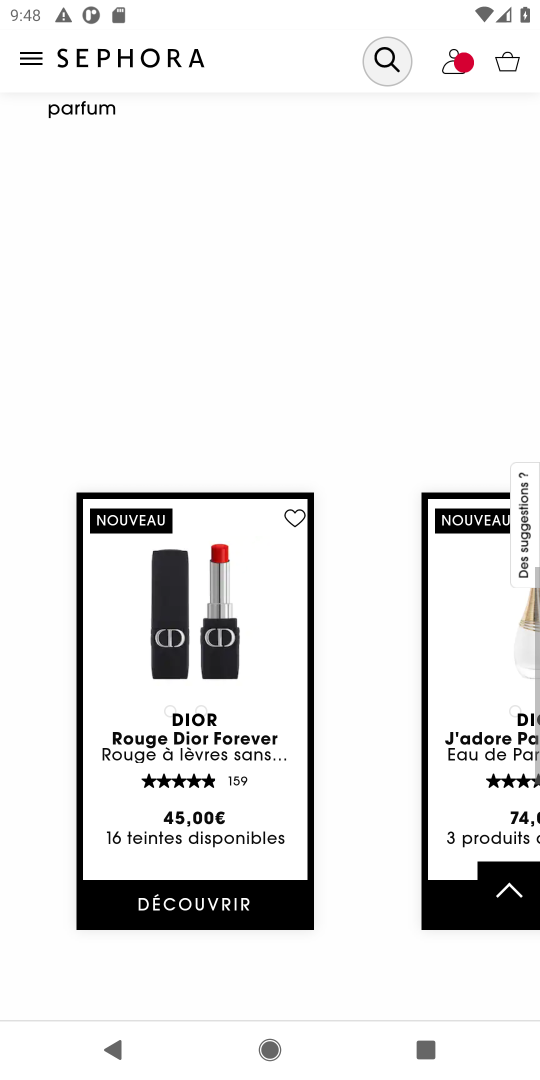
Step 54: drag from (399, 750) to (390, 330)
Your task to perform on an android device: Search for a new lipgloss Image 55: 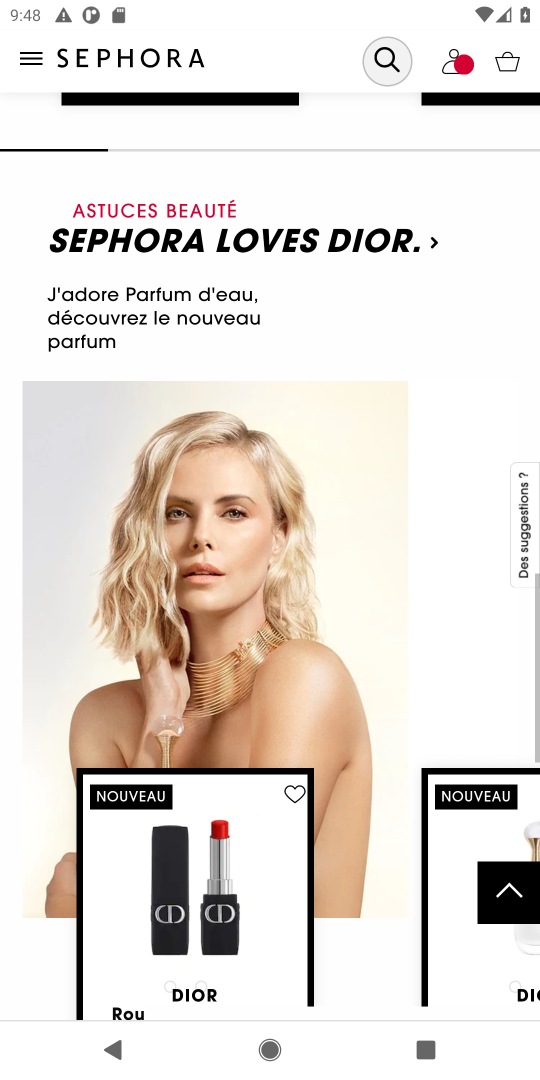
Step 55: drag from (403, 709) to (424, 257)
Your task to perform on an android device: Search for a new lipgloss Image 56: 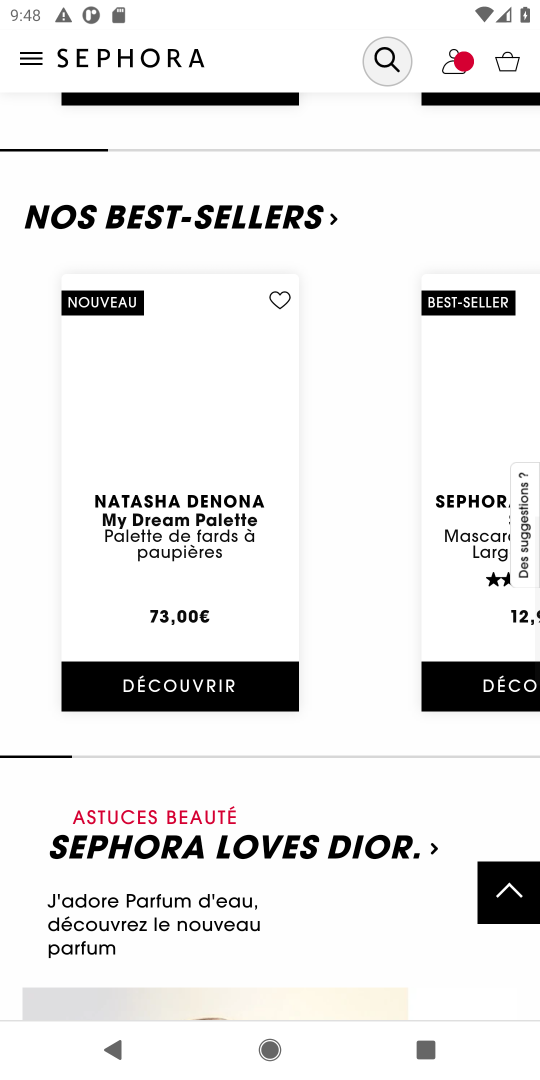
Step 56: drag from (427, 765) to (398, 489)
Your task to perform on an android device: Search for a new lipgloss Image 57: 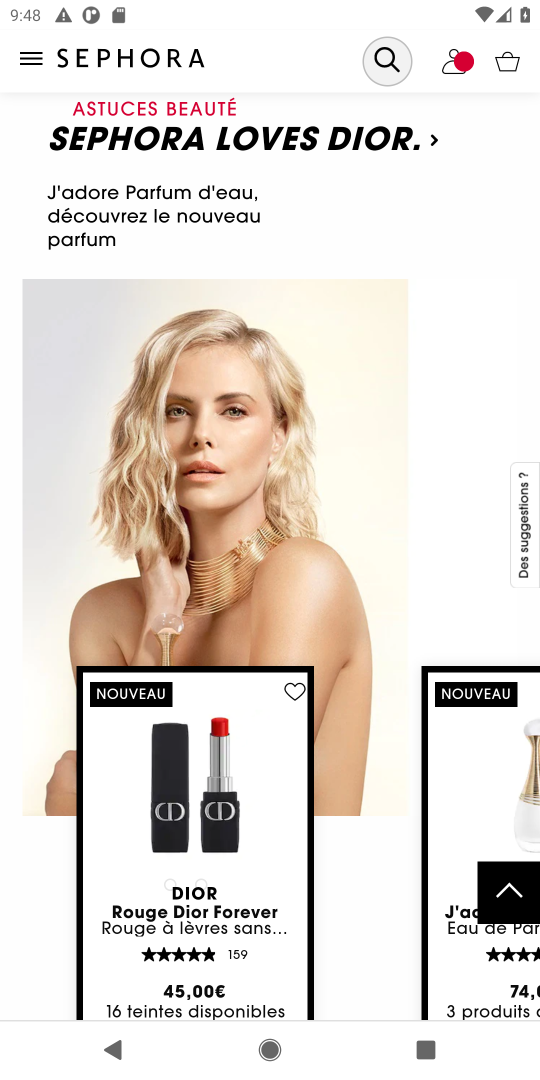
Step 57: drag from (280, 665) to (328, 288)
Your task to perform on an android device: Search for a new lipgloss Image 58: 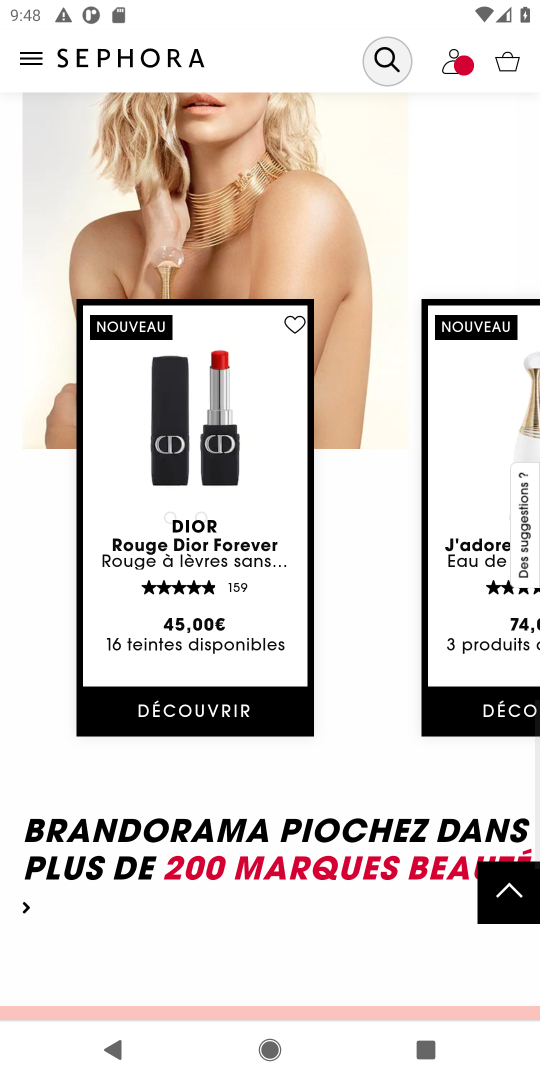
Step 58: drag from (333, 720) to (338, 229)
Your task to perform on an android device: Search for a new lipgloss Image 59: 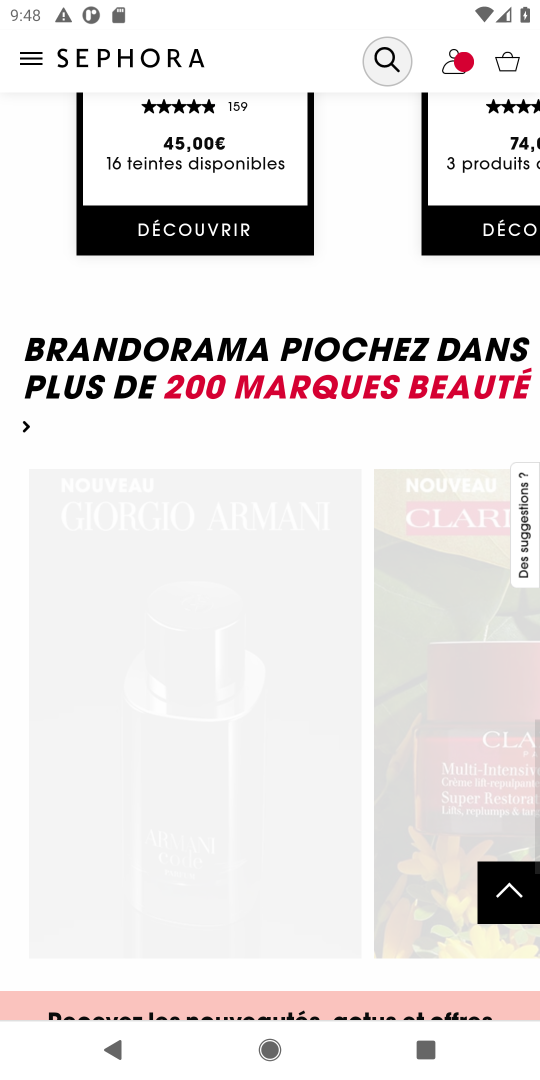
Step 59: drag from (308, 677) to (339, 345)
Your task to perform on an android device: Search for a new lipgloss Image 60: 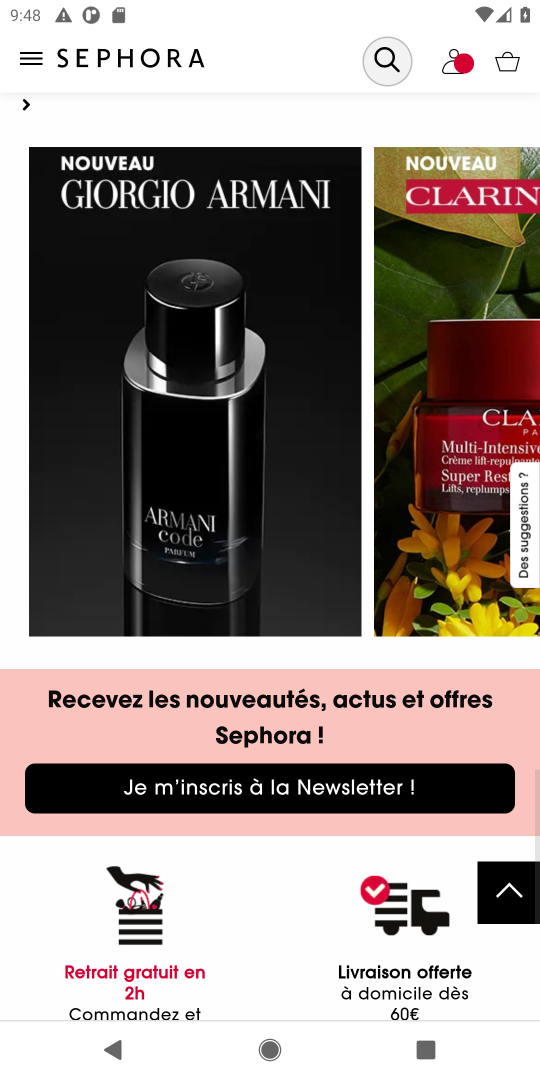
Step 60: drag from (363, 651) to (388, 229)
Your task to perform on an android device: Search for a new lipgloss Image 61: 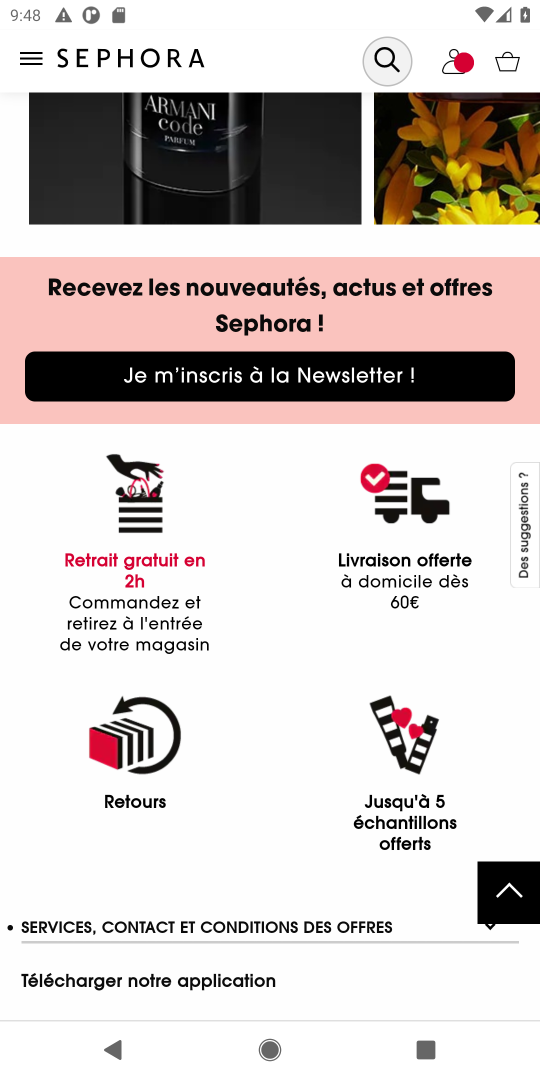
Step 61: drag from (375, 809) to (383, 145)
Your task to perform on an android device: Search for a new lipgloss Image 62: 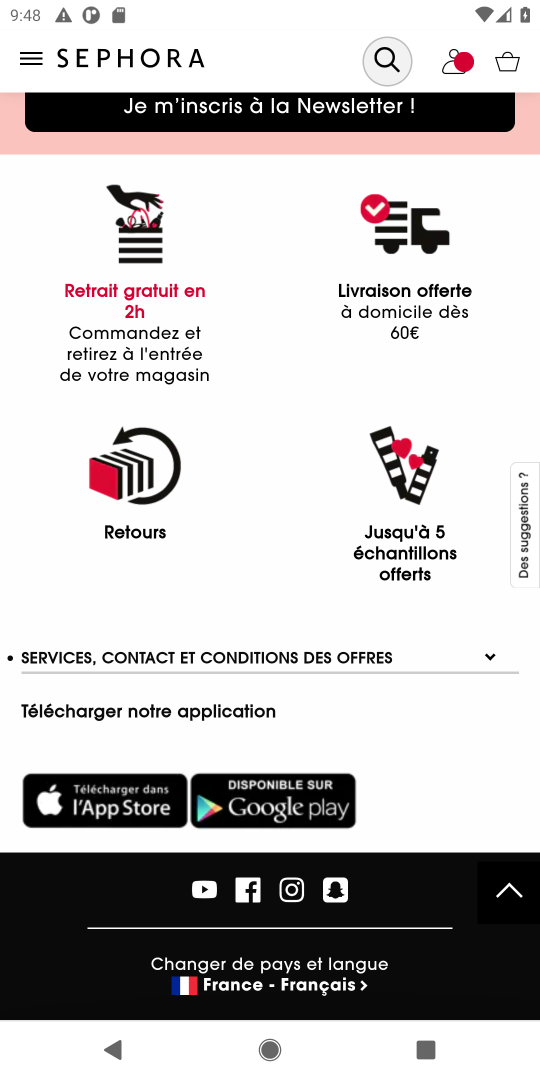
Step 62: drag from (353, 636) to (364, 262)
Your task to perform on an android device: Search for a new lipgloss Image 63: 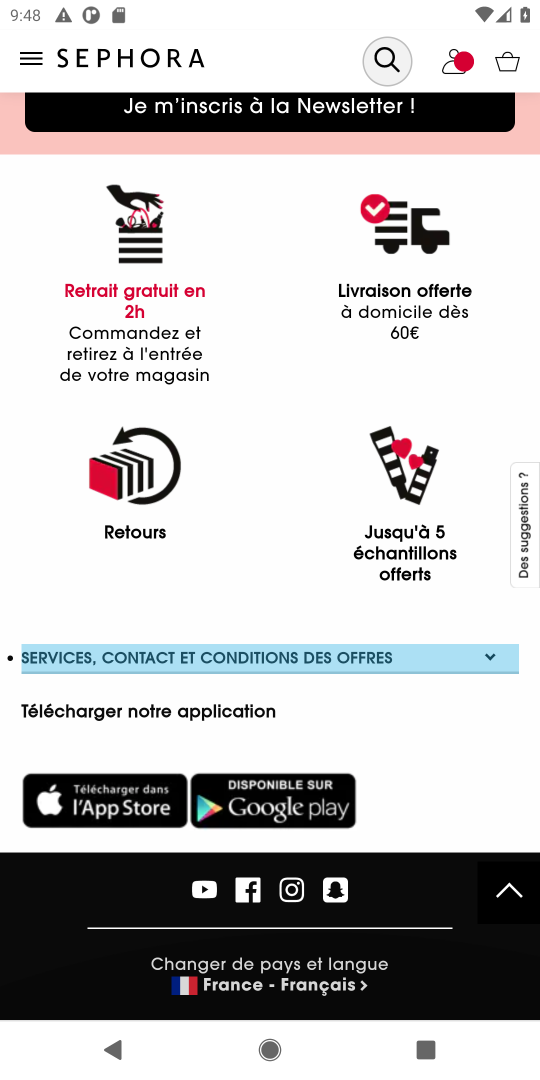
Step 63: drag from (379, 489) to (382, 670)
Your task to perform on an android device: Search for a new lipgloss Image 64: 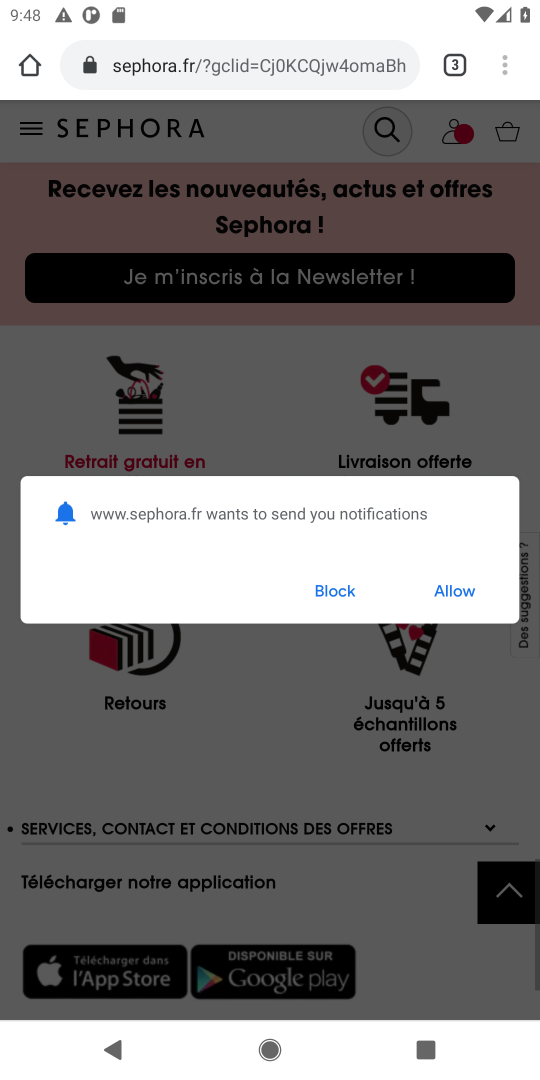
Step 64: click (508, 893)
Your task to perform on an android device: Search for a new lipgloss Image 65: 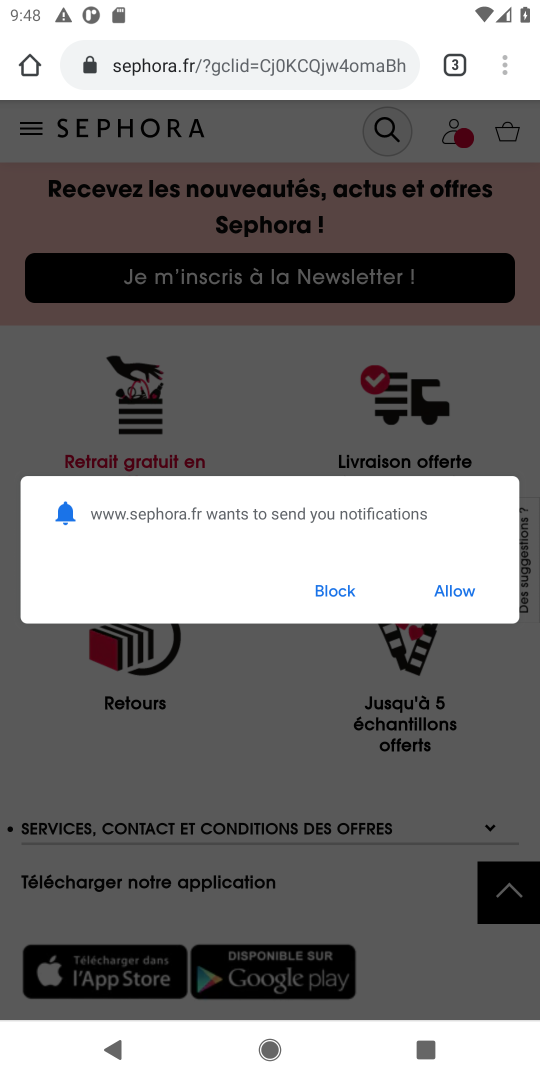
Step 65: click (349, 600)
Your task to perform on an android device: Search for a new lipgloss Image 66: 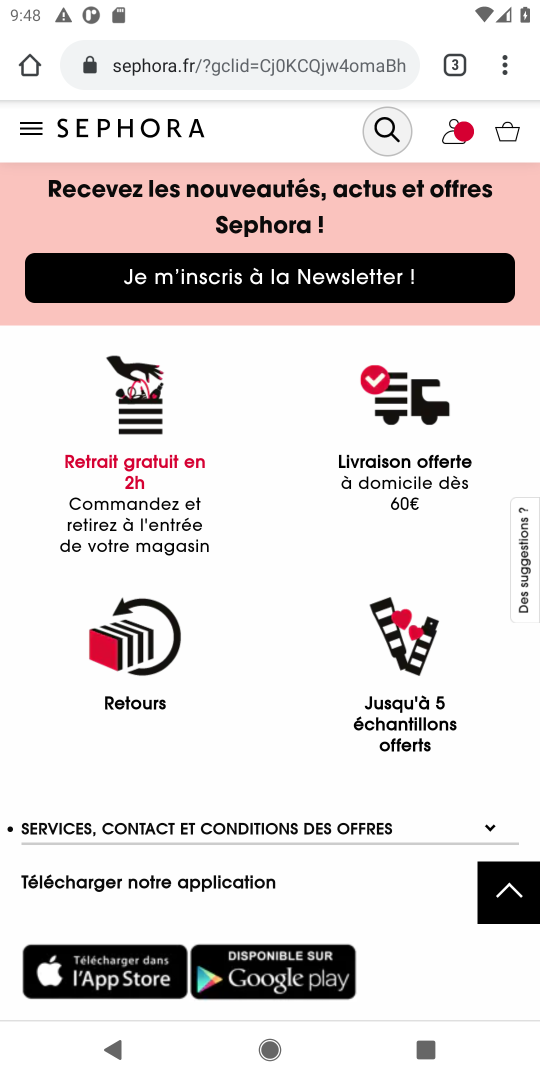
Step 66: click (514, 903)
Your task to perform on an android device: Search for a new lipgloss Image 67: 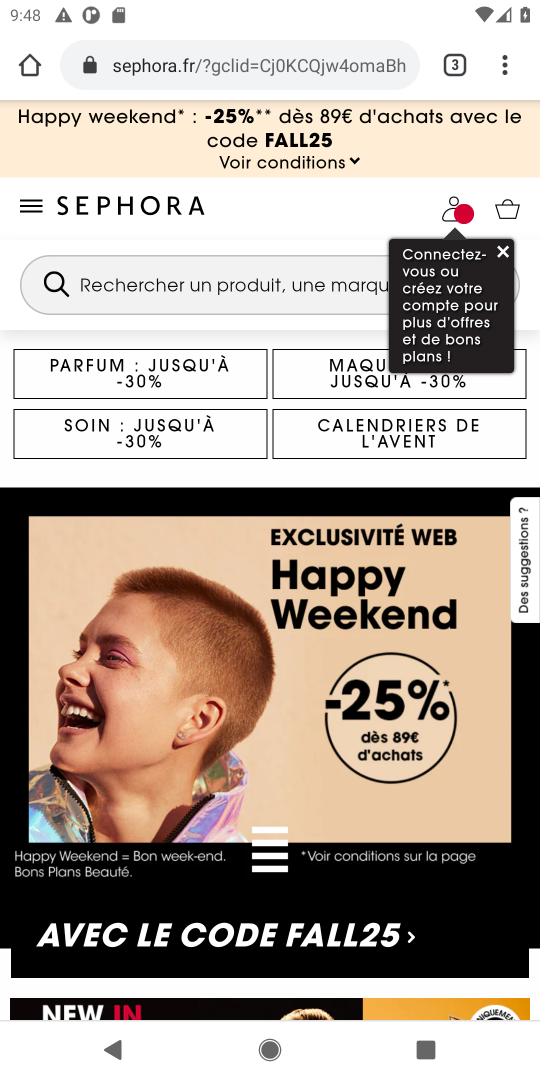
Step 67: drag from (388, 833) to (409, 339)
Your task to perform on an android device: Search for a new lipgloss Image 68: 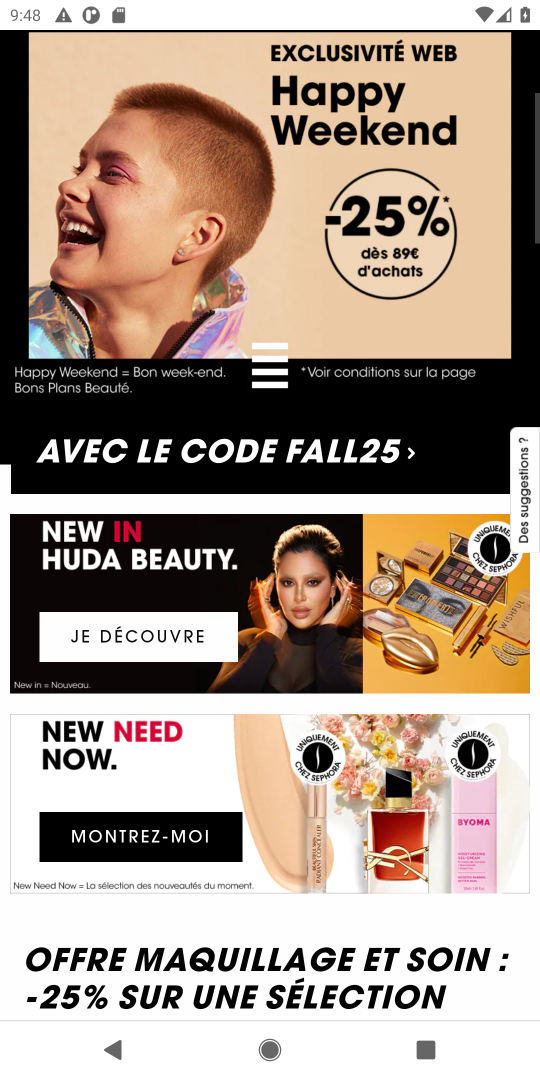
Step 68: click (204, 593)
Your task to perform on an android device: Search for a new lipgloss Image 69: 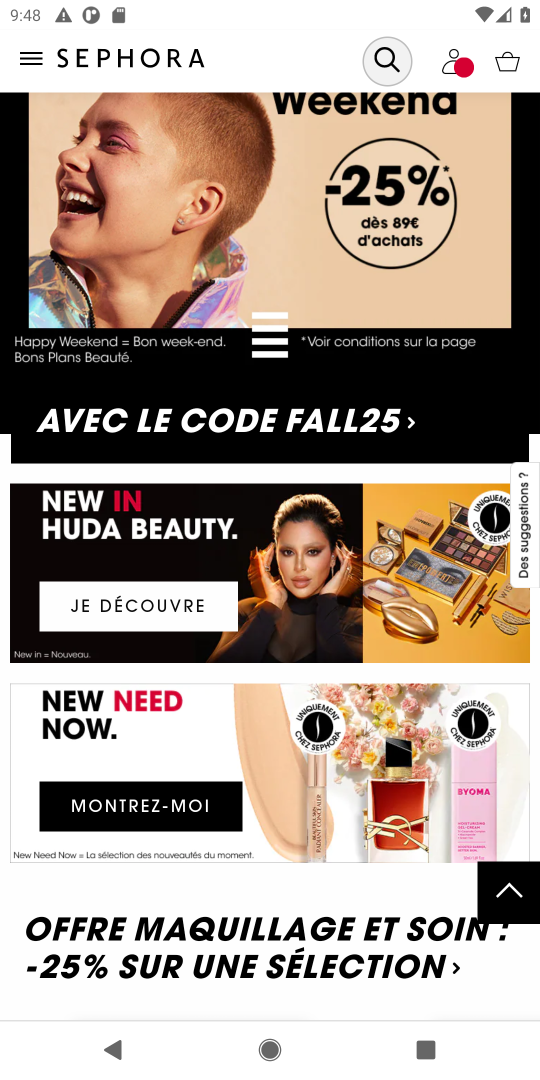
Step 69: press back button
Your task to perform on an android device: Search for a new lipgloss Image 70: 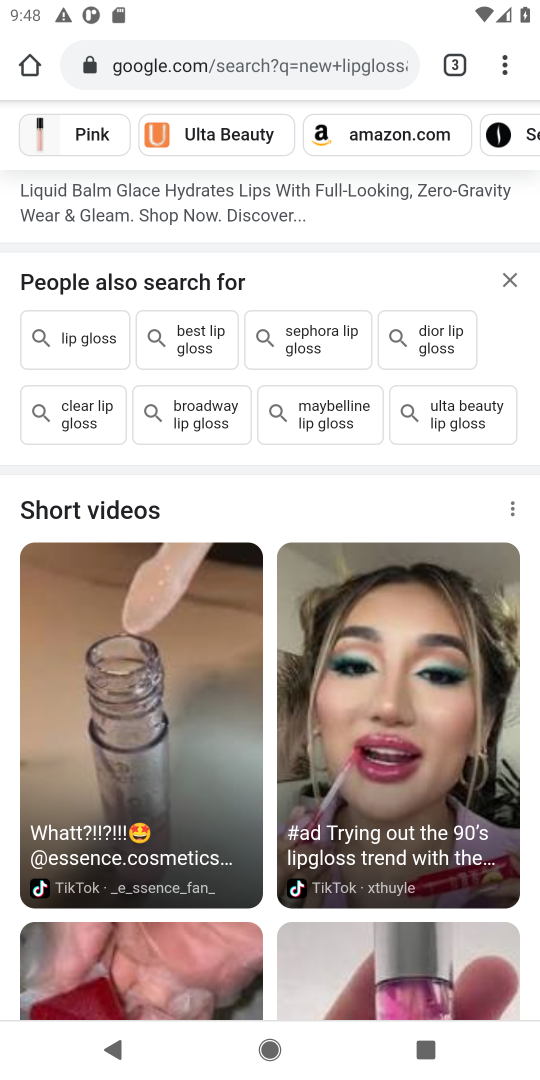
Step 70: drag from (351, 915) to (452, 214)
Your task to perform on an android device: Search for a new lipgloss Image 71: 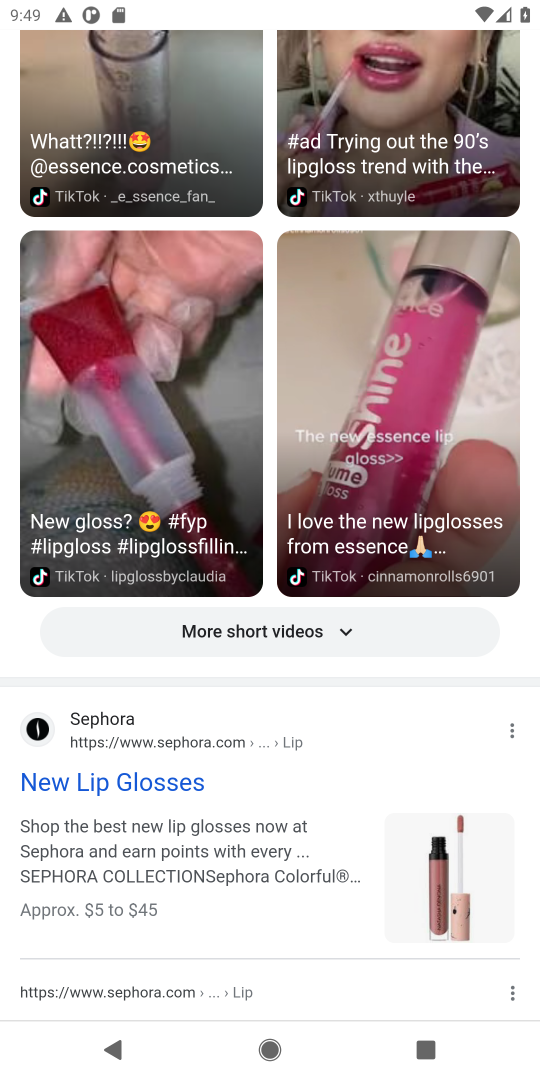
Step 71: click (132, 778)
Your task to perform on an android device: Search for a new lipgloss Image 72: 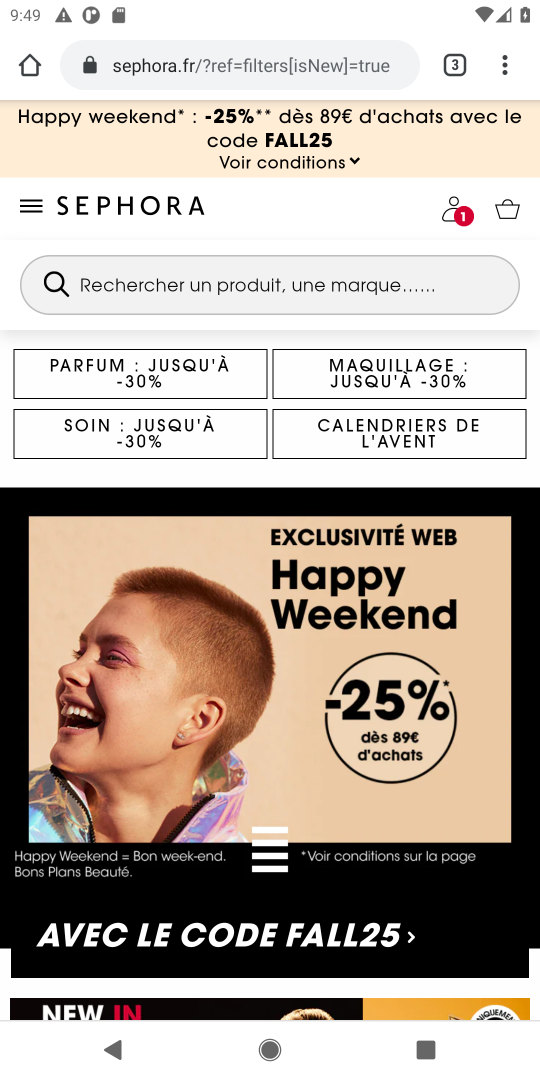
Step 72: drag from (217, 828) to (381, 314)
Your task to perform on an android device: Search for a new lipgloss Image 73: 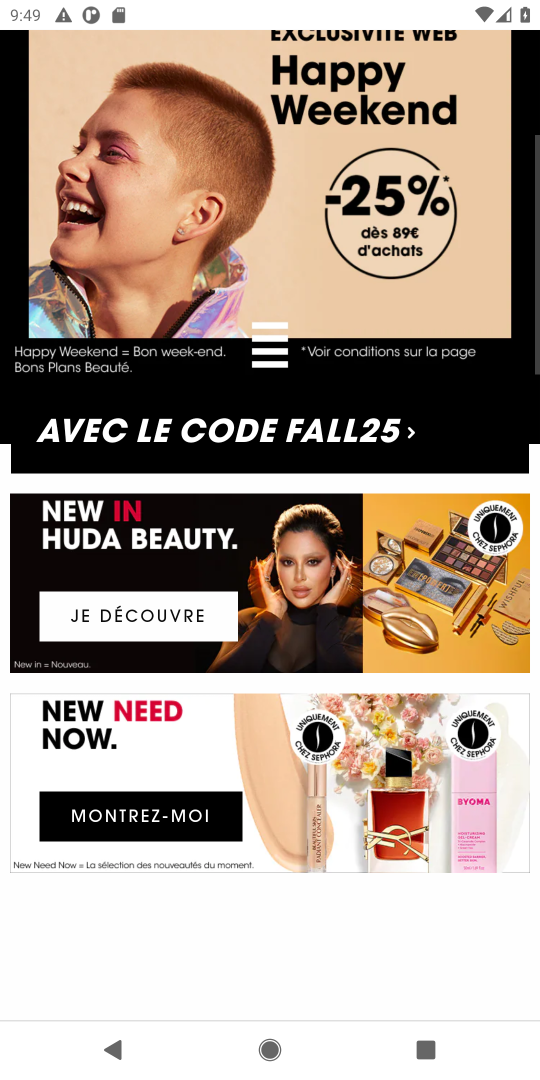
Step 73: drag from (273, 624) to (326, 353)
Your task to perform on an android device: Search for a new lipgloss Image 74: 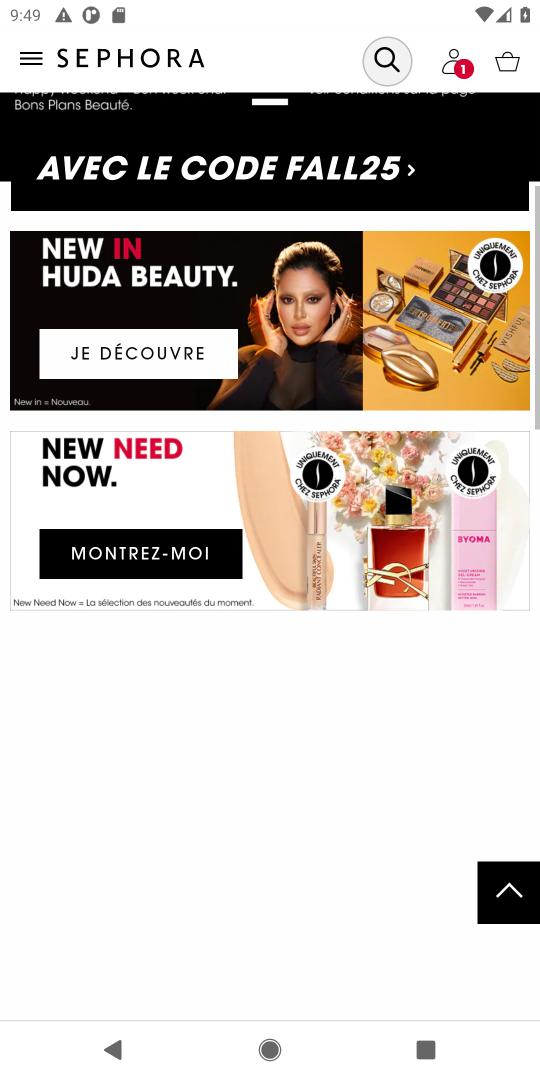
Step 74: drag from (308, 683) to (349, 240)
Your task to perform on an android device: Search for a new lipgloss Image 75: 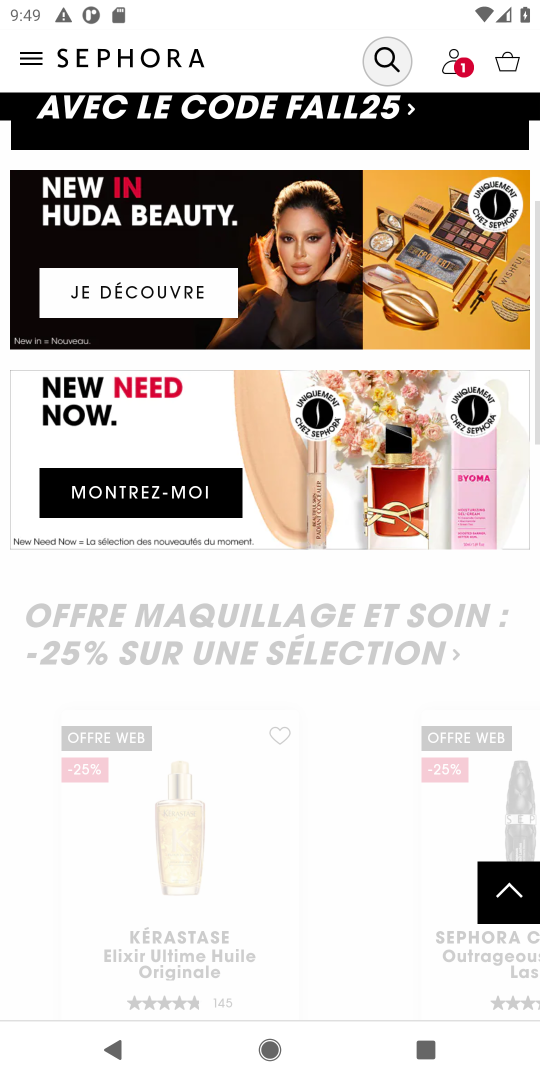
Step 75: drag from (299, 741) to (323, 295)
Your task to perform on an android device: Search for a new lipgloss Image 76: 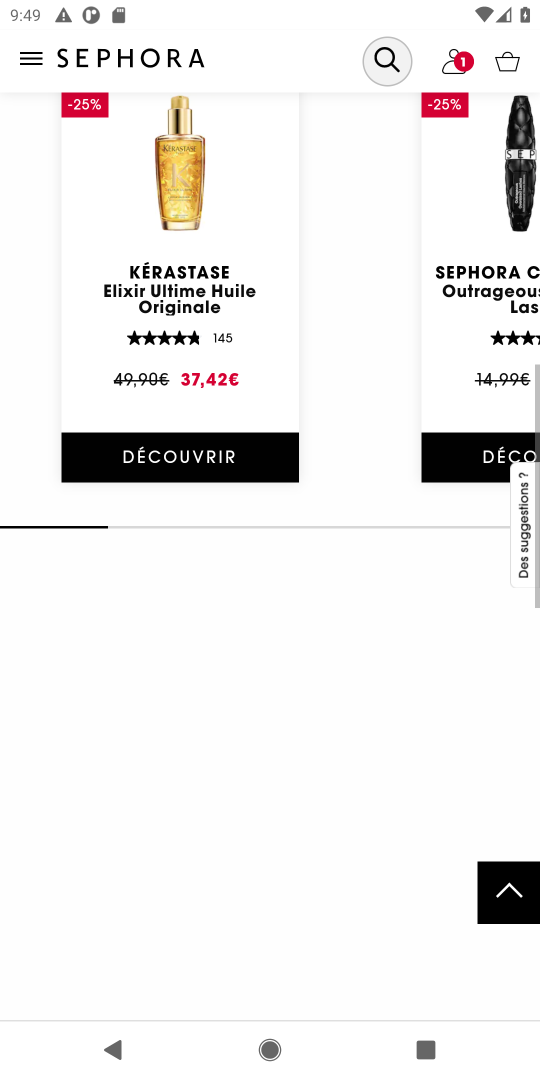
Step 76: drag from (291, 728) to (333, 372)
Your task to perform on an android device: Search for a new lipgloss Image 77: 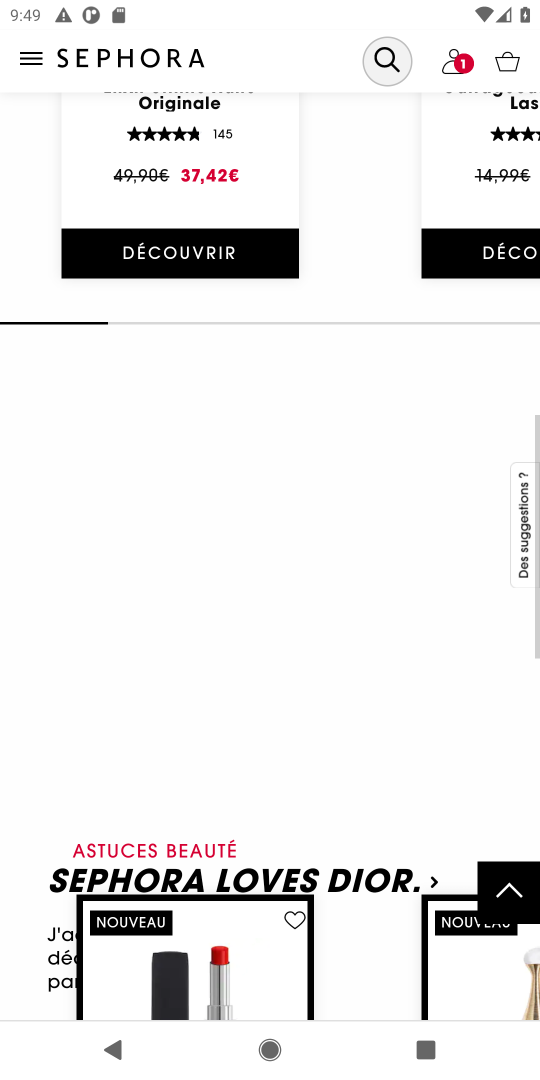
Step 77: drag from (350, 745) to (367, 443)
Your task to perform on an android device: Search for a new lipgloss Image 78: 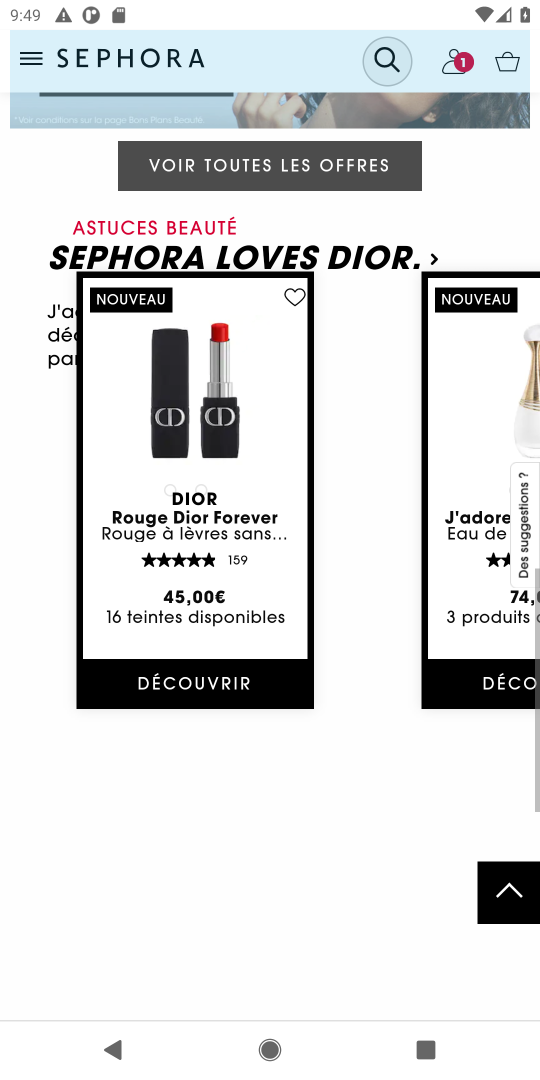
Step 78: drag from (335, 610) to (339, 370)
Your task to perform on an android device: Search for a new lipgloss Image 79: 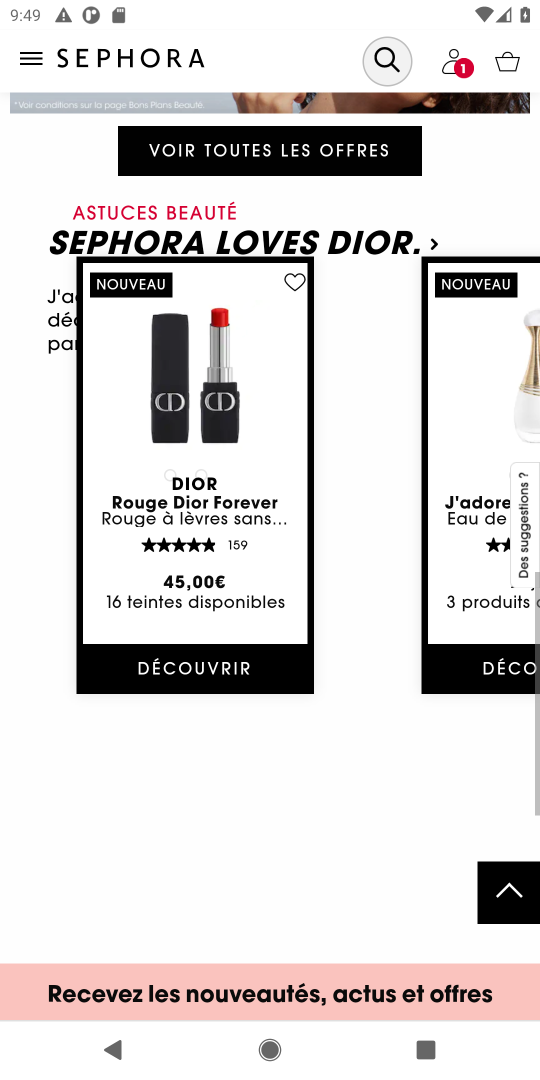
Step 79: drag from (305, 669) to (334, 364)
Your task to perform on an android device: Search for a new lipgloss Image 80: 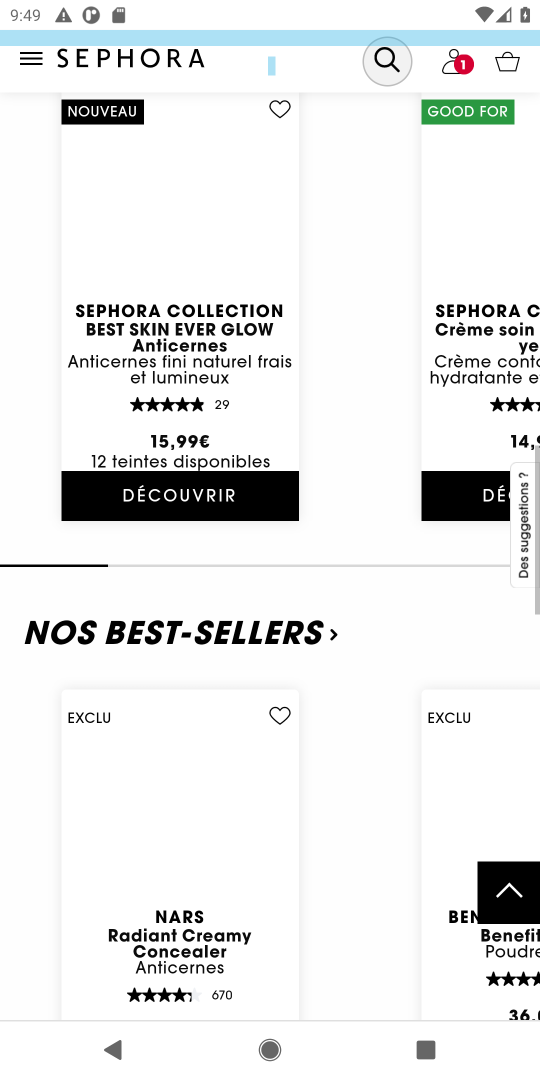
Step 80: drag from (220, 707) to (259, 370)
Your task to perform on an android device: Search for a new lipgloss Image 81: 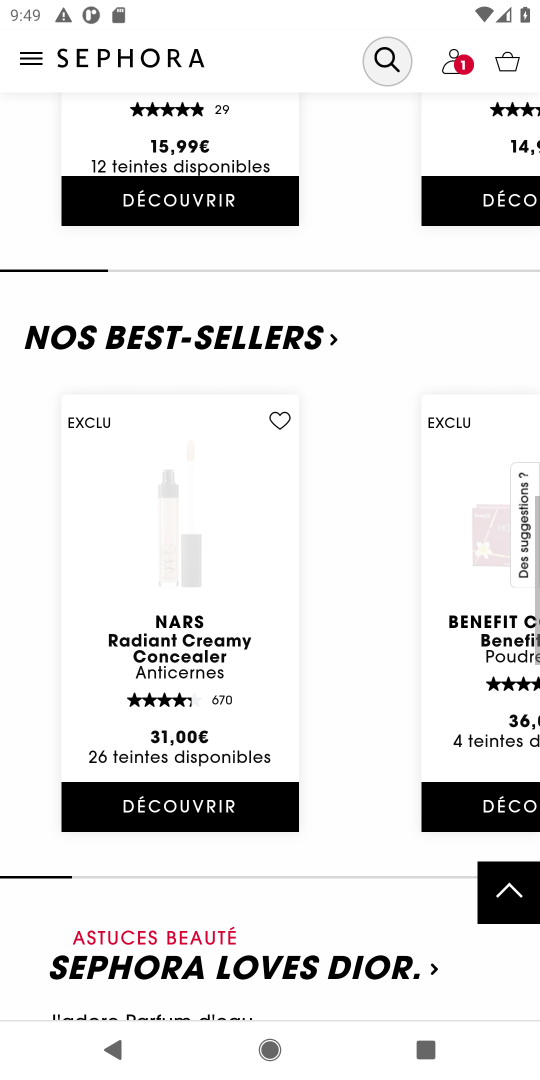
Step 81: drag from (290, 461) to (308, 381)
Your task to perform on an android device: Search for a new lipgloss Image 82: 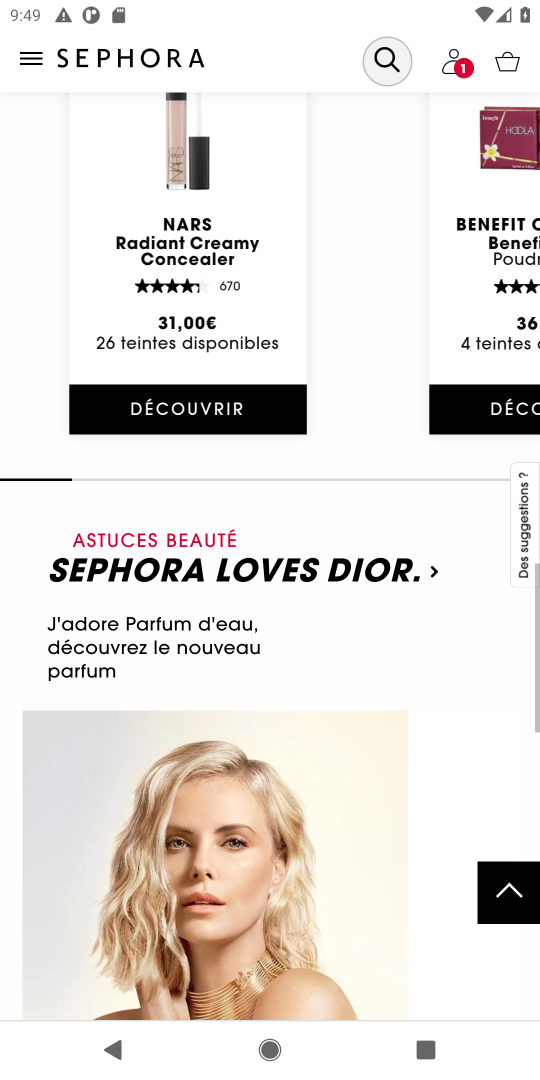
Step 82: drag from (369, 370) to (377, 275)
Your task to perform on an android device: Search for a new lipgloss Image 83: 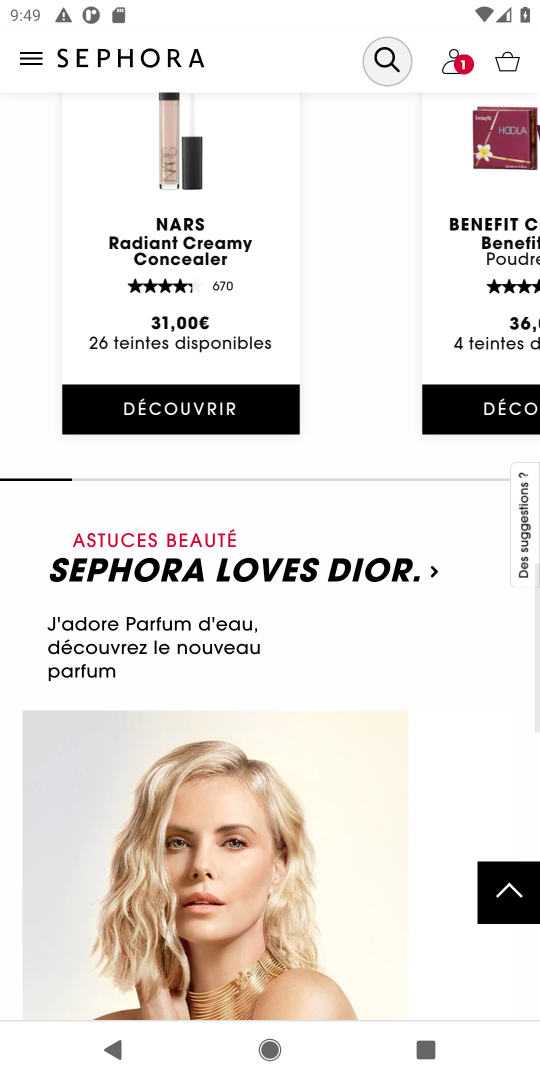
Step 83: drag from (345, 512) to (372, 301)
Your task to perform on an android device: Search for a new lipgloss Image 84: 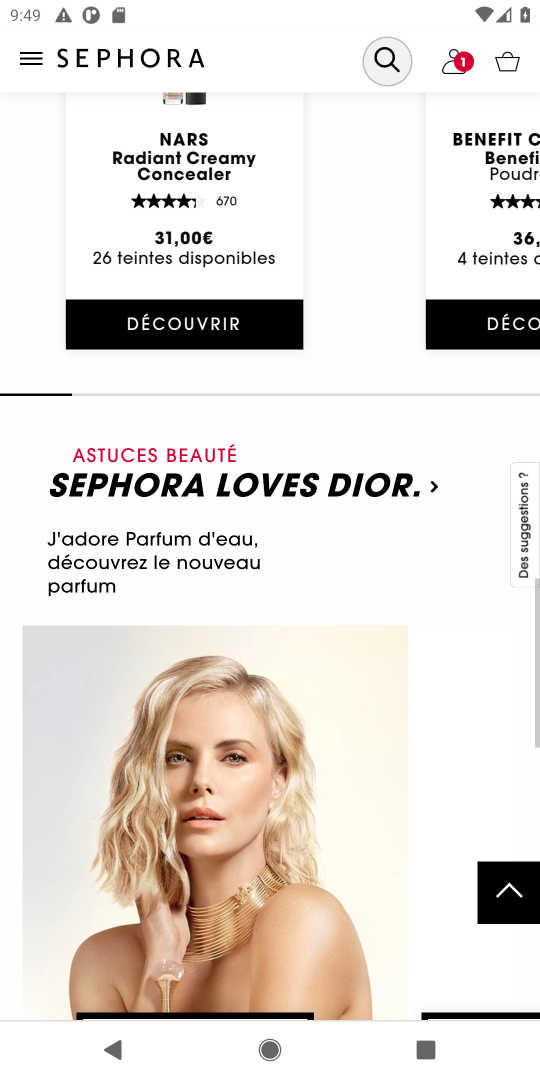
Step 84: drag from (313, 659) to (365, 318)
Your task to perform on an android device: Search for a new lipgloss Image 85: 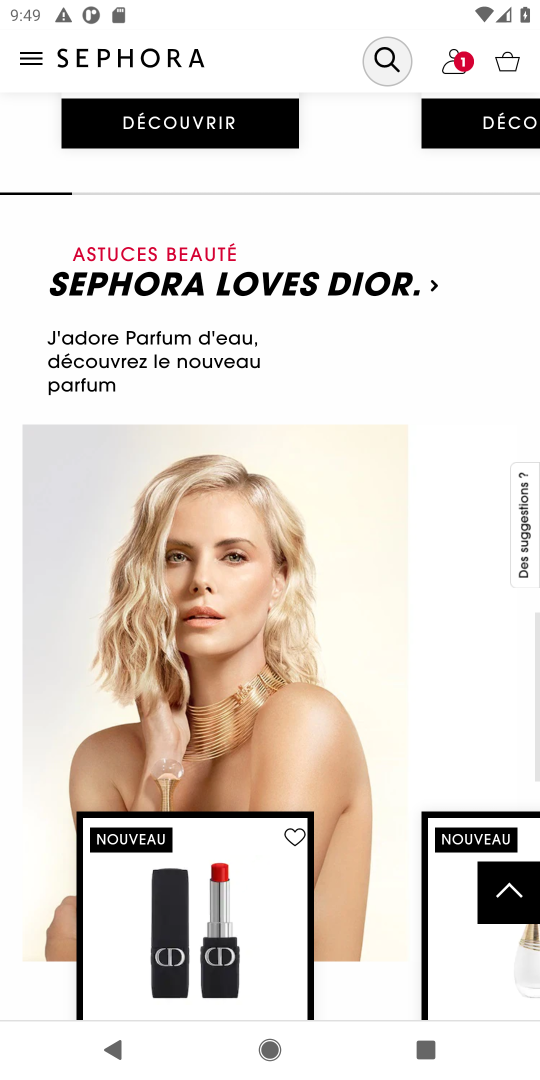
Step 85: click (398, 300)
Your task to perform on an android device: Search for a new lipgloss Image 86: 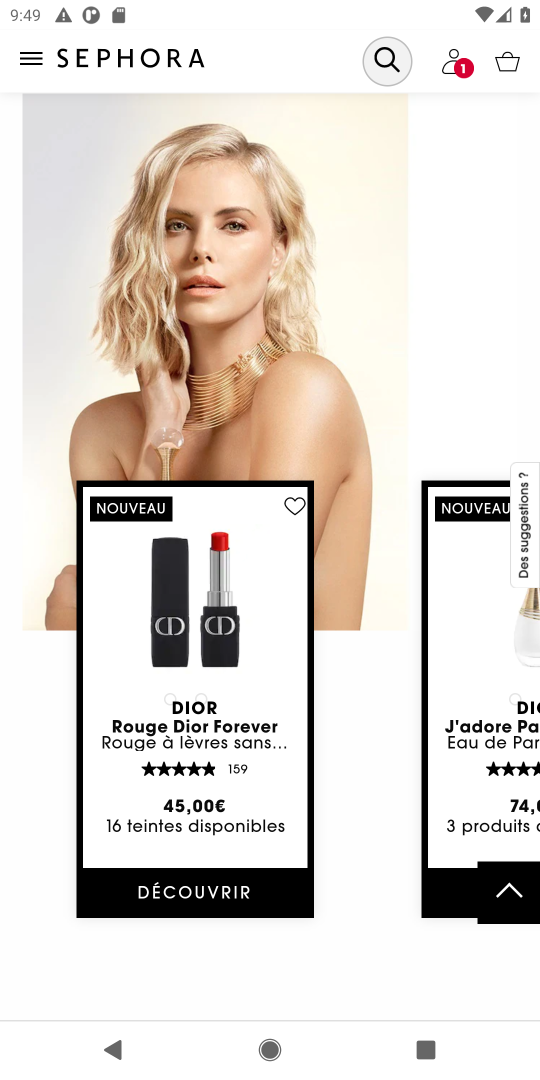
Step 86: task complete